Your task to perform on an android device: Check my email Image 0: 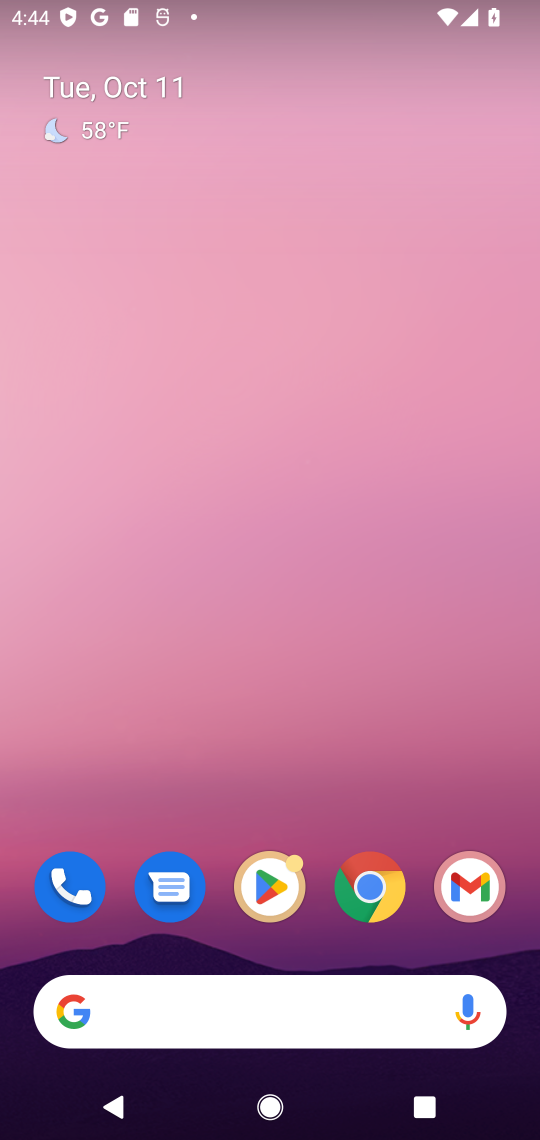
Step 0: drag from (340, 1054) to (363, 233)
Your task to perform on an android device: Check my email Image 1: 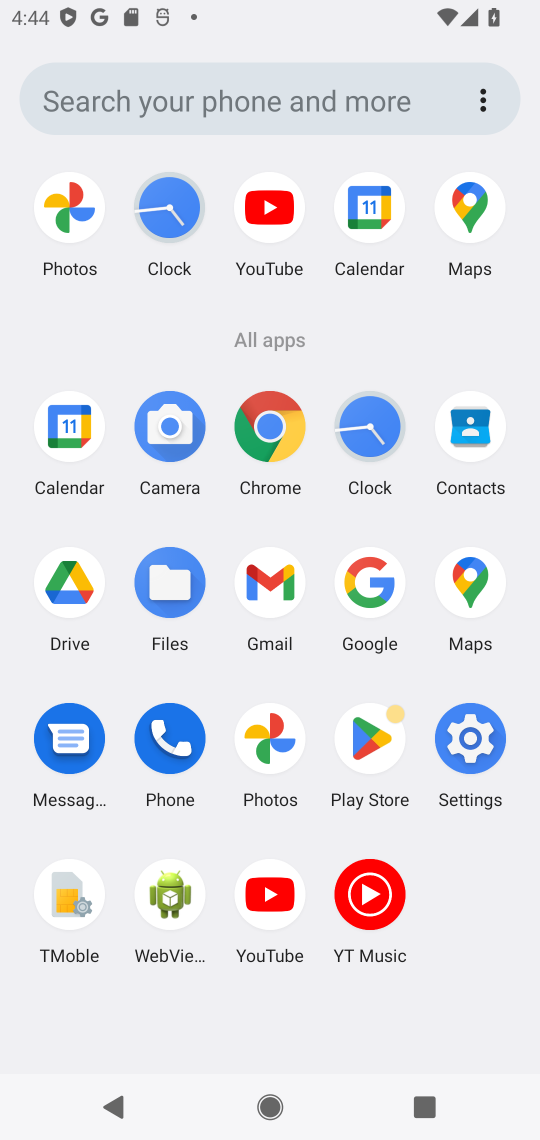
Step 1: click (262, 571)
Your task to perform on an android device: Check my email Image 2: 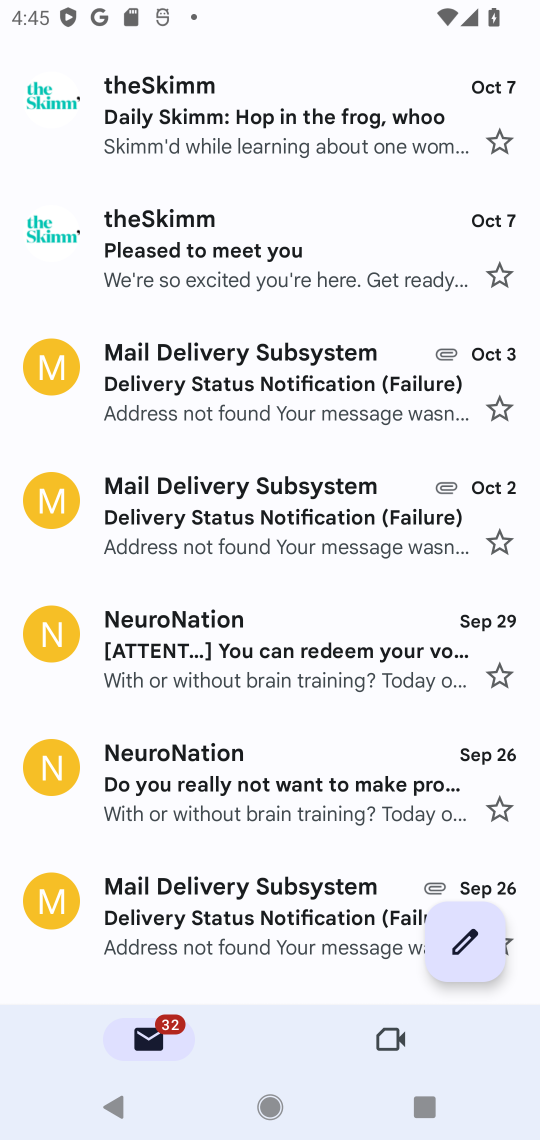
Step 2: drag from (226, 432) to (183, 760)
Your task to perform on an android device: Check my email Image 3: 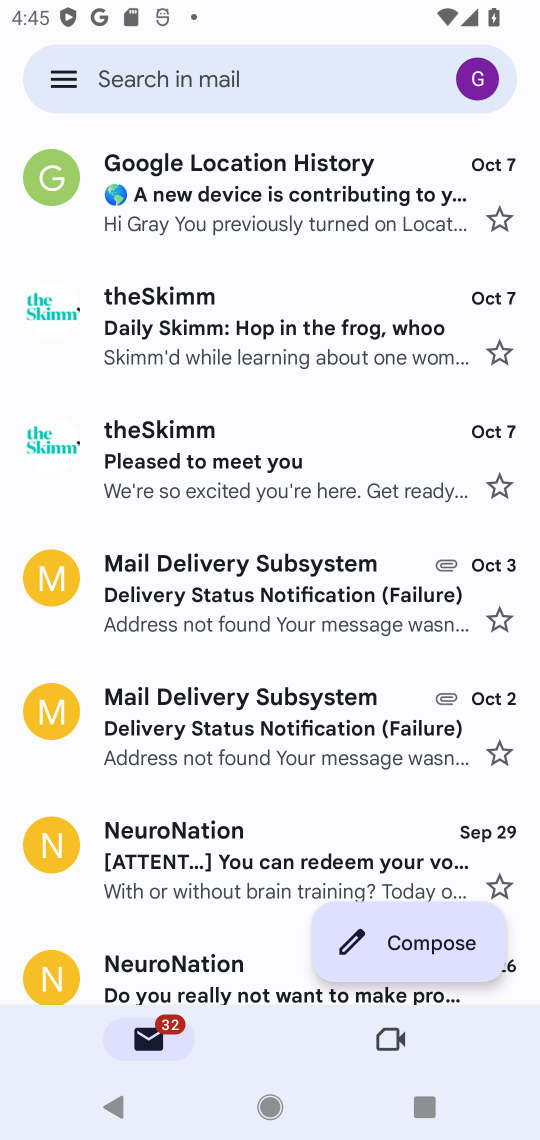
Step 3: click (62, 94)
Your task to perform on an android device: Check my email Image 4: 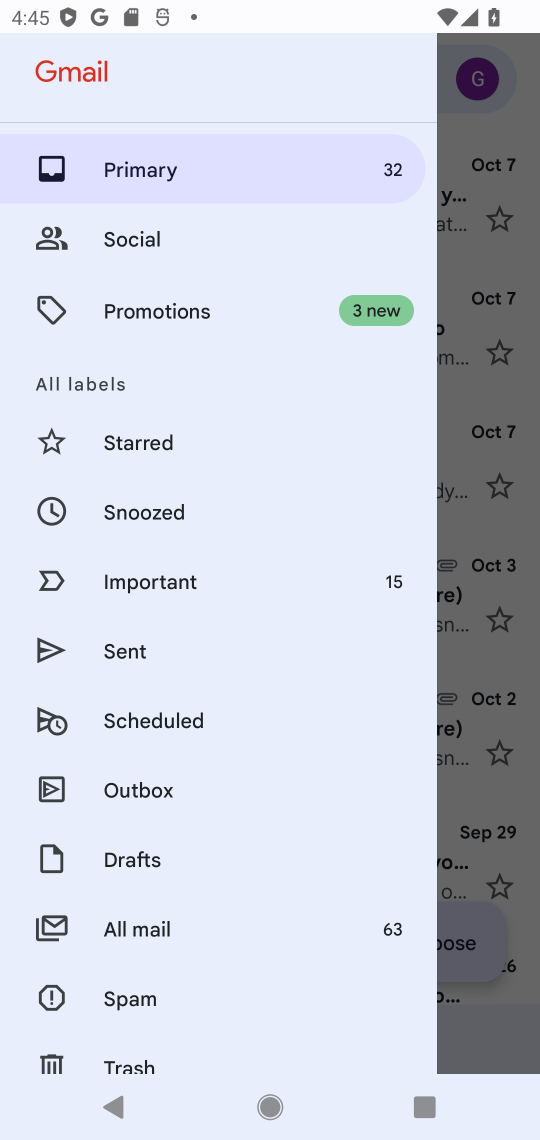
Step 4: click (321, 310)
Your task to perform on an android device: Check my email Image 5: 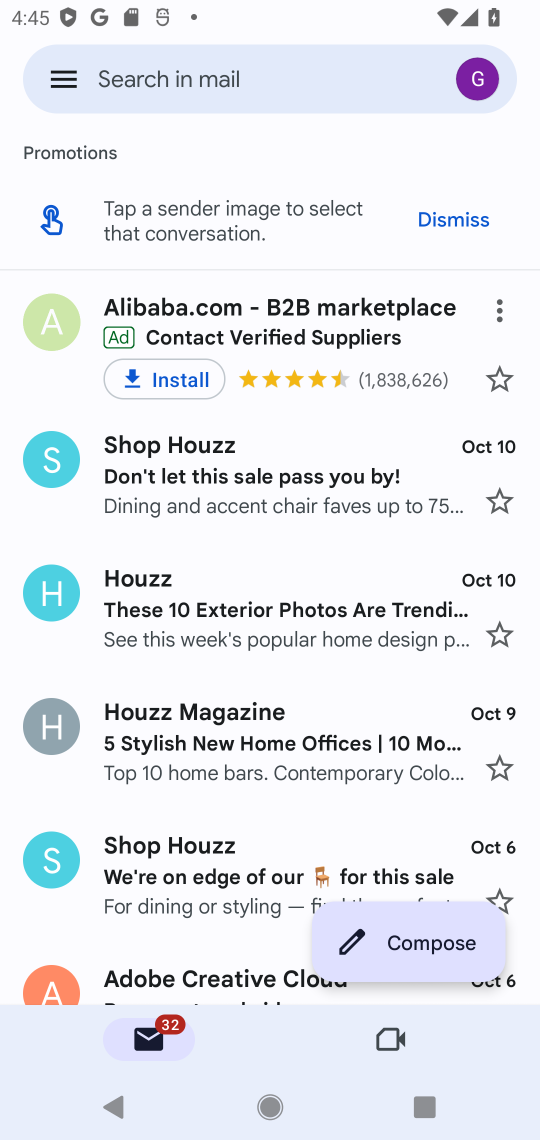
Step 5: click (471, 92)
Your task to perform on an android device: Check my email Image 6: 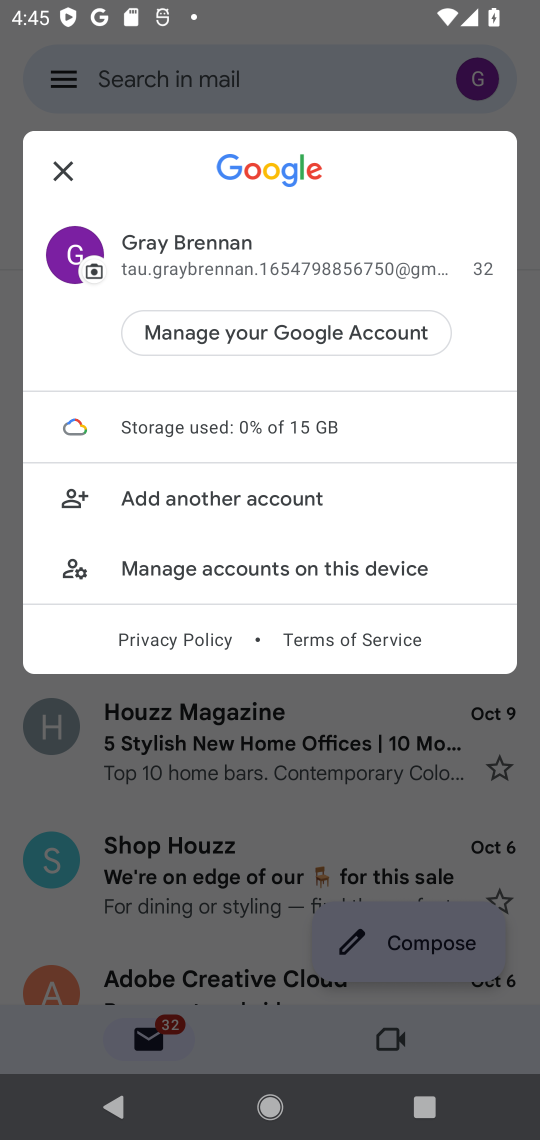
Step 6: click (471, 92)
Your task to perform on an android device: Check my email Image 7: 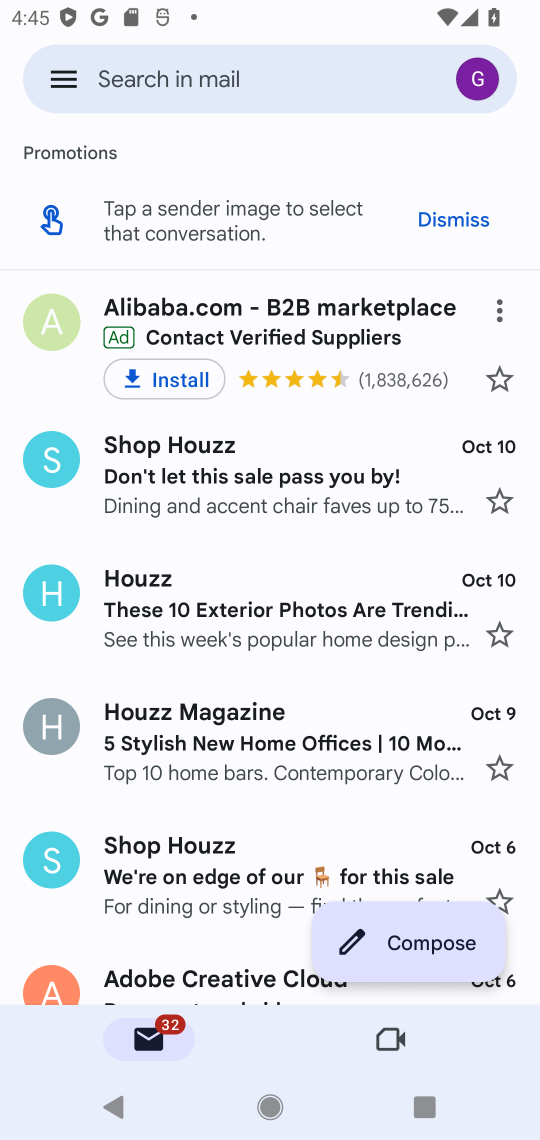
Step 7: click (471, 92)
Your task to perform on an android device: Check my email Image 8: 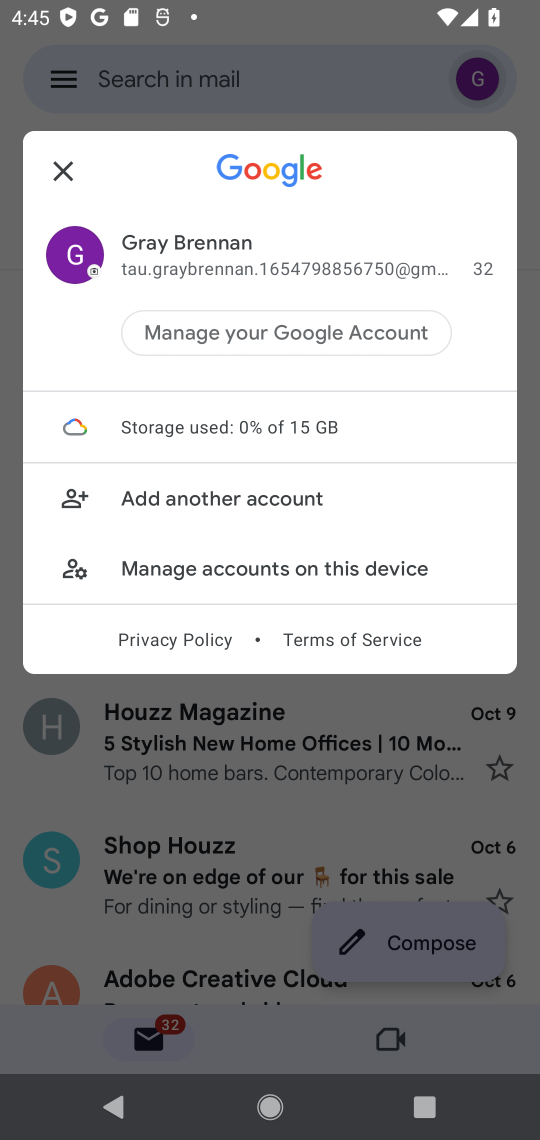
Step 8: click (471, 92)
Your task to perform on an android device: Check my email Image 9: 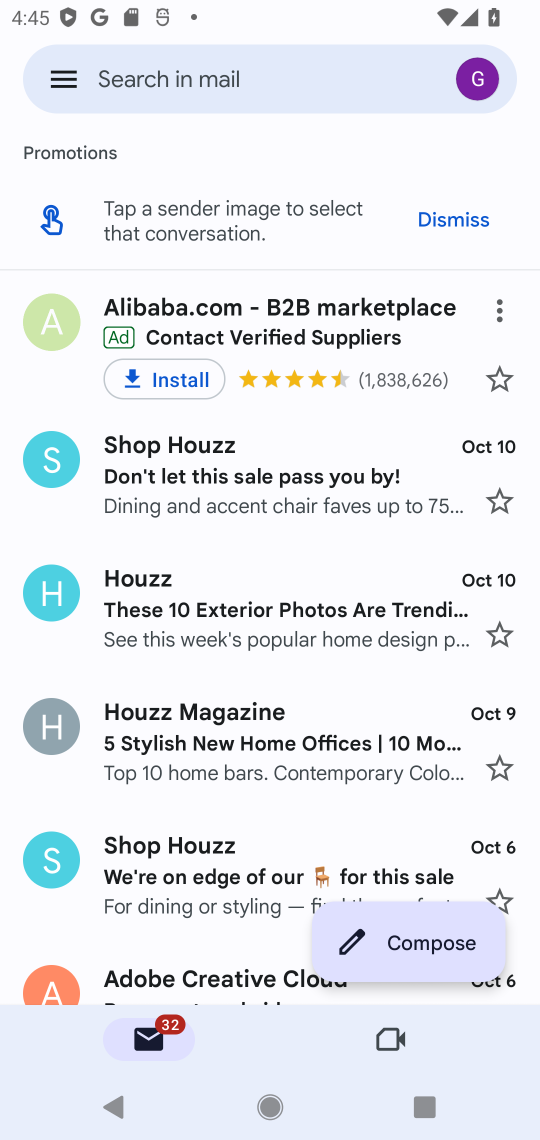
Step 9: click (471, 92)
Your task to perform on an android device: Check my email Image 10: 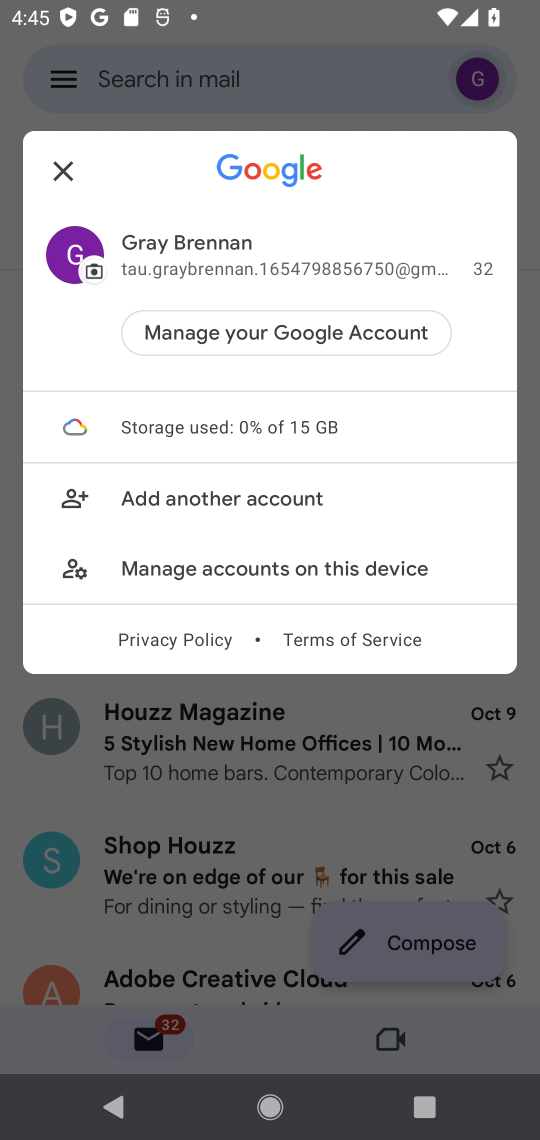
Step 10: click (471, 92)
Your task to perform on an android device: Check my email Image 11: 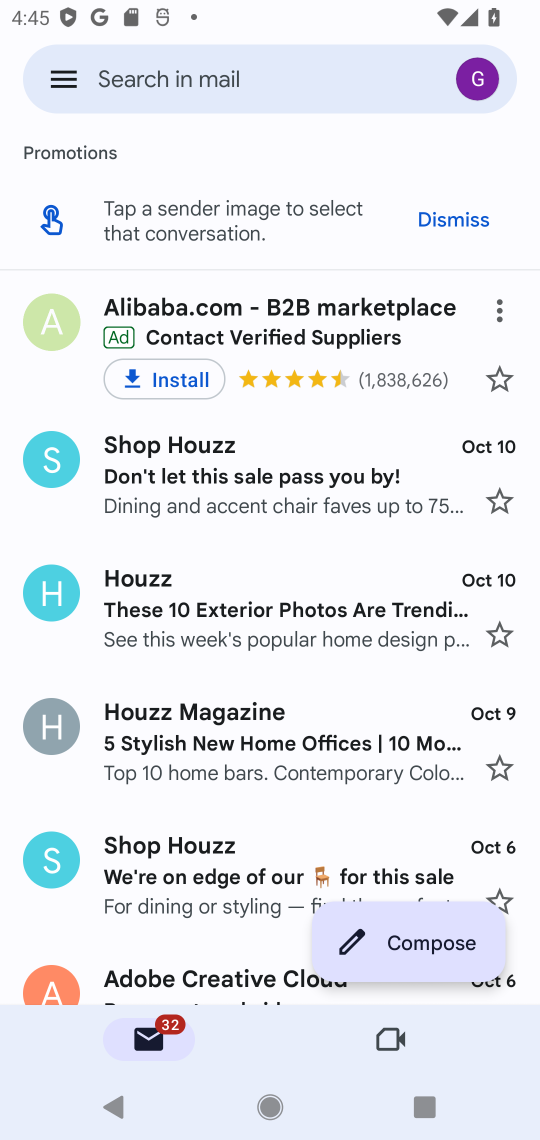
Step 11: click (471, 92)
Your task to perform on an android device: Check my email Image 12: 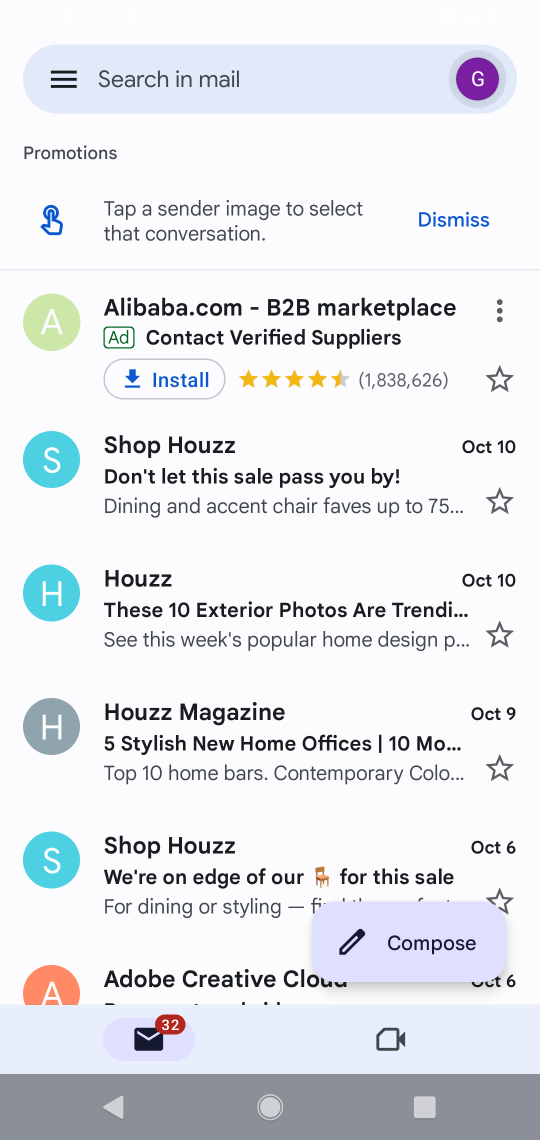
Step 12: click (471, 92)
Your task to perform on an android device: Check my email Image 13: 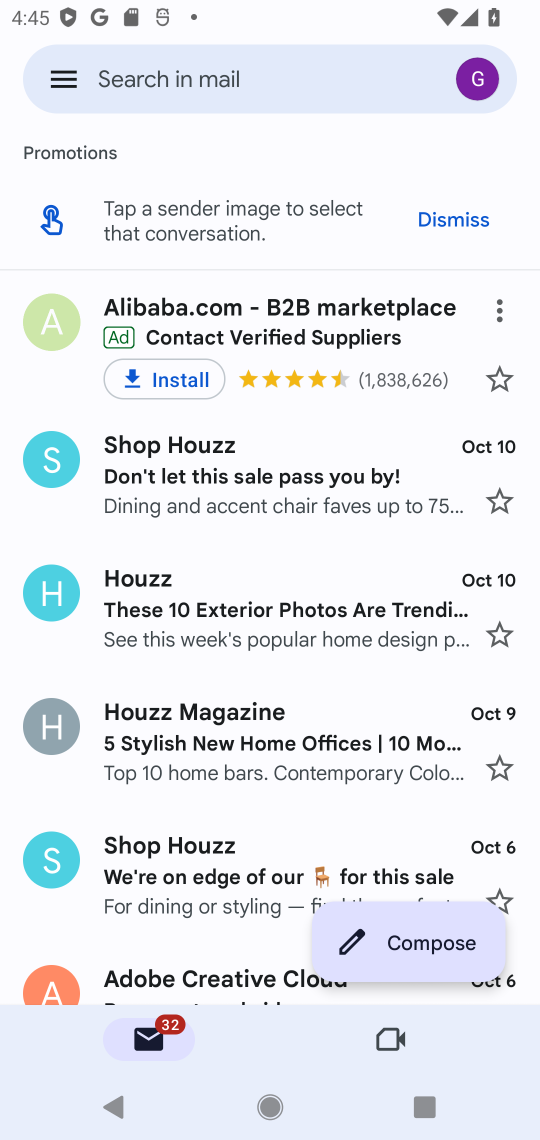
Step 13: click (471, 90)
Your task to perform on an android device: Check my email Image 14: 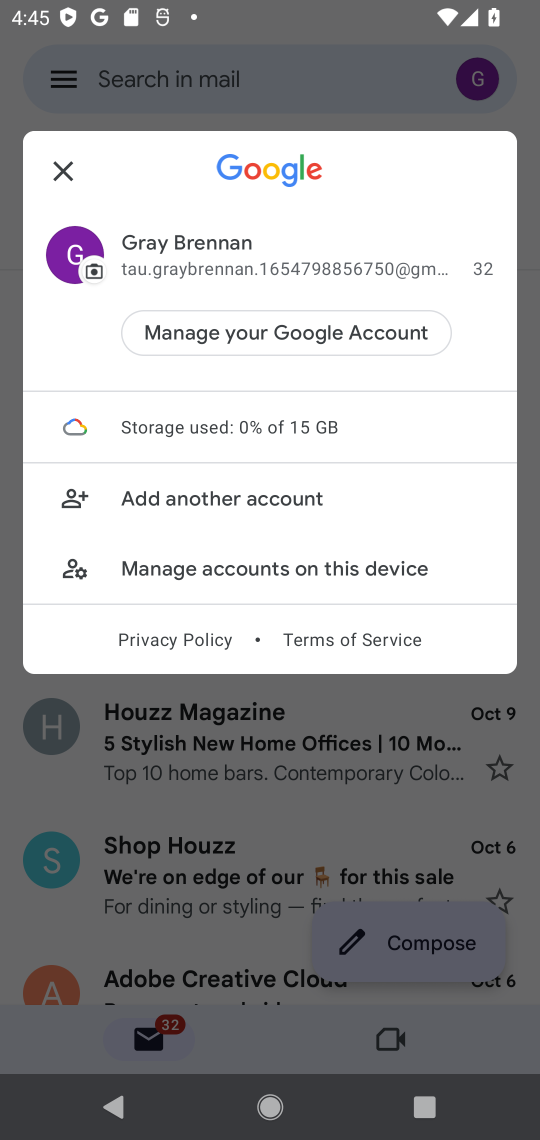
Step 14: click (471, 90)
Your task to perform on an android device: Check my email Image 15: 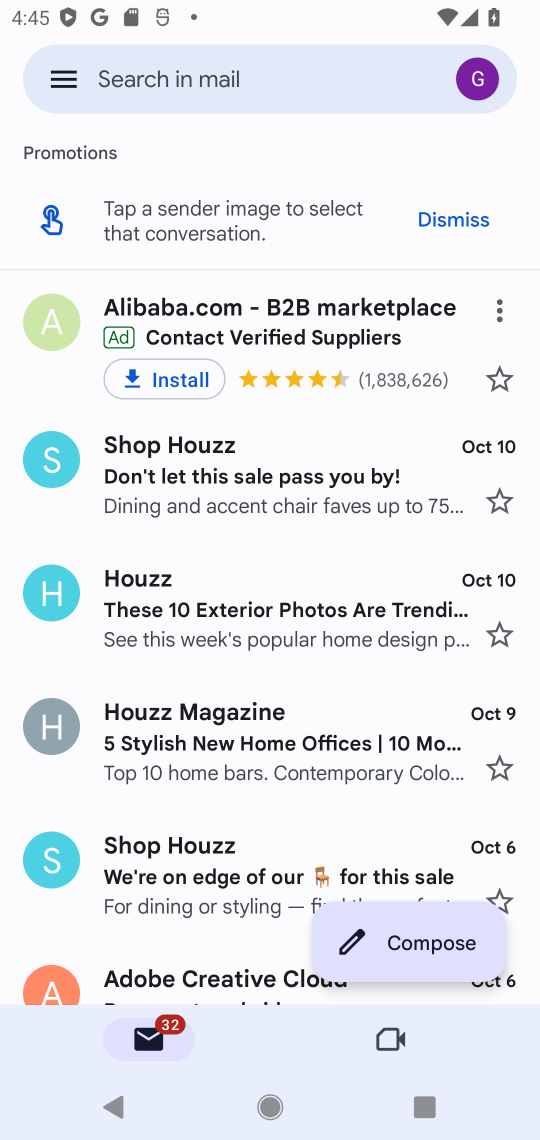
Step 15: click (471, 90)
Your task to perform on an android device: Check my email Image 16: 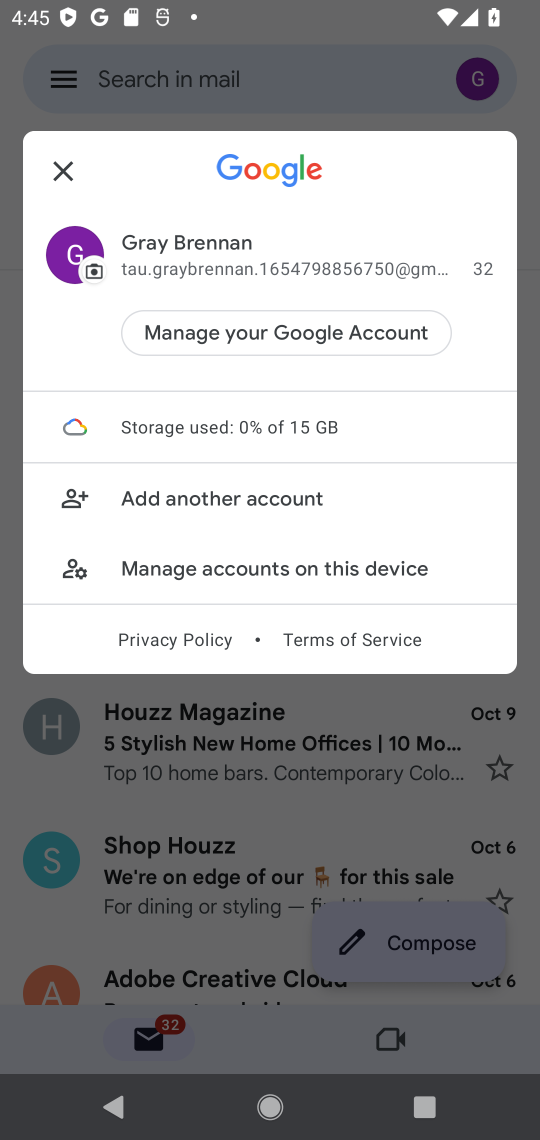
Step 16: click (473, 88)
Your task to perform on an android device: Check my email Image 17: 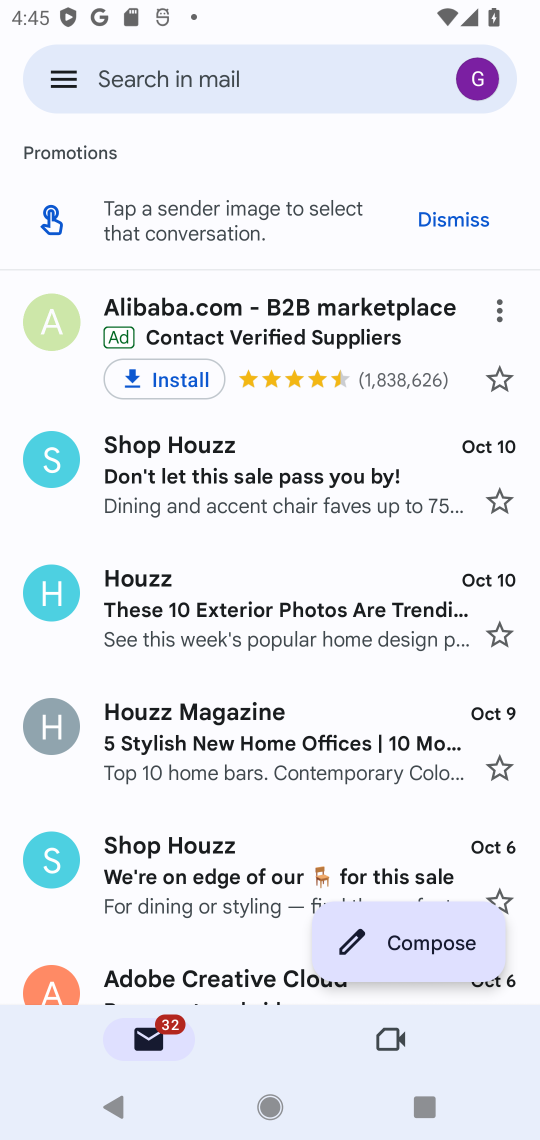
Step 17: click (473, 88)
Your task to perform on an android device: Check my email Image 18: 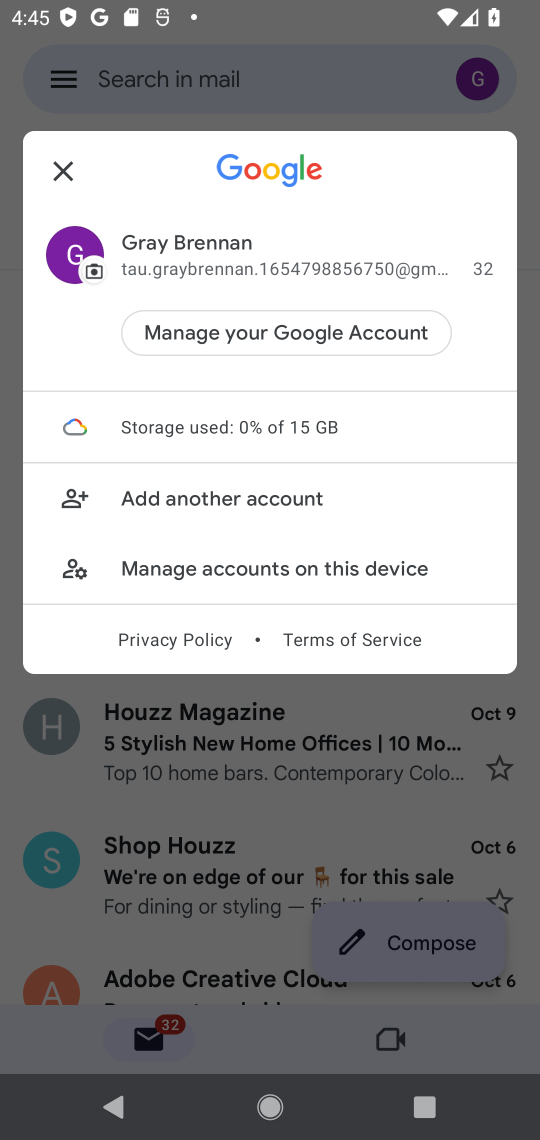
Step 18: click (473, 88)
Your task to perform on an android device: Check my email Image 19: 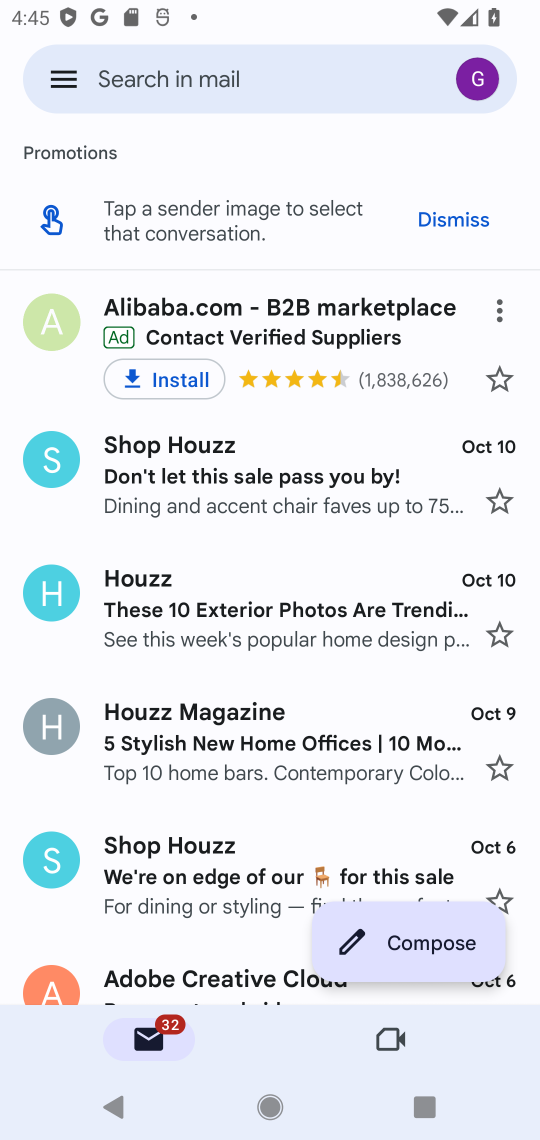
Step 19: click (473, 88)
Your task to perform on an android device: Check my email Image 20: 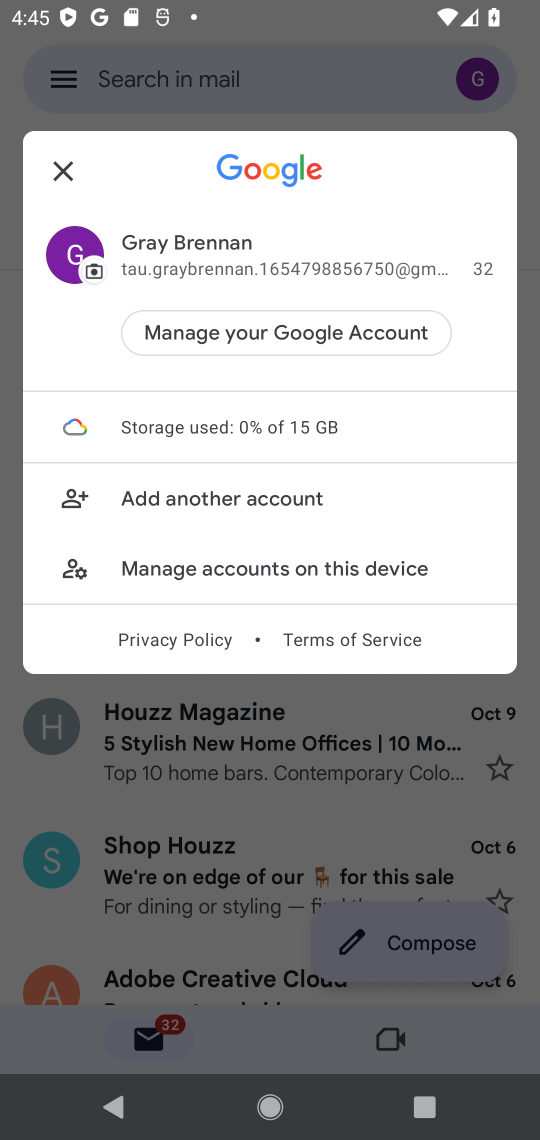
Step 20: click (473, 88)
Your task to perform on an android device: Check my email Image 21: 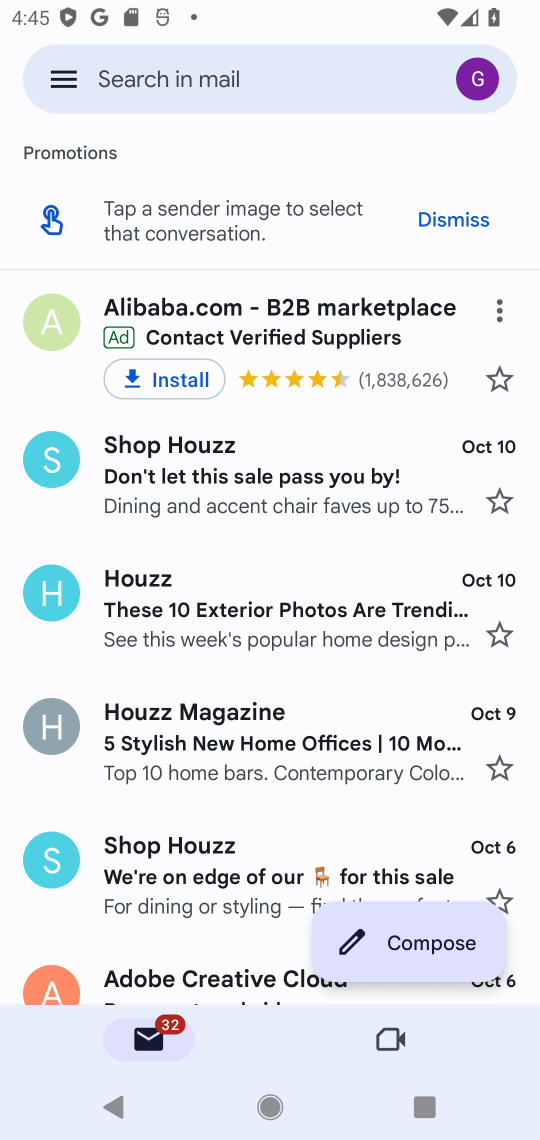
Step 21: click (473, 88)
Your task to perform on an android device: Check my email Image 22: 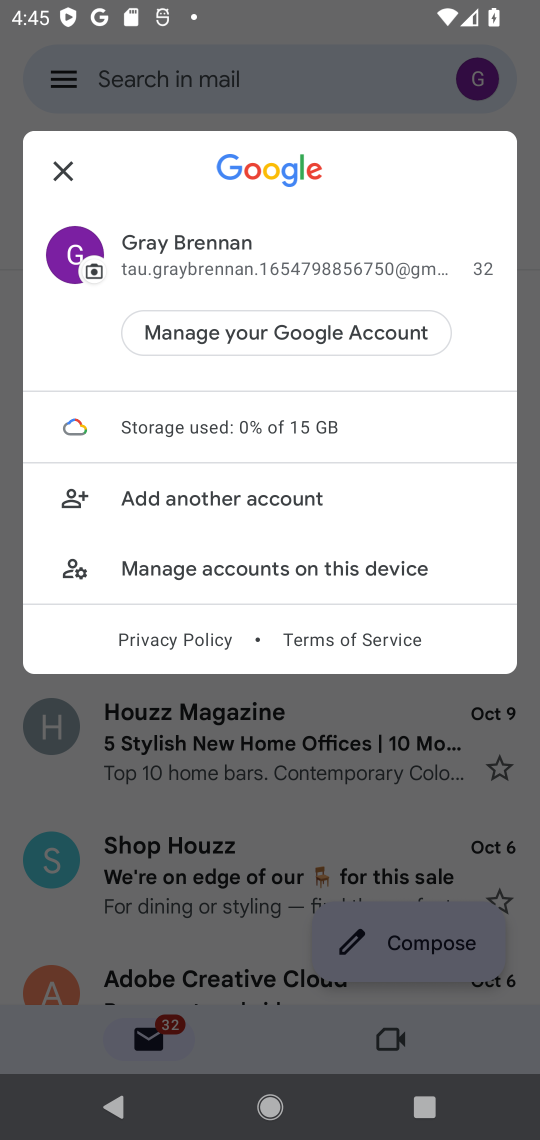
Step 22: click (473, 88)
Your task to perform on an android device: Check my email Image 23: 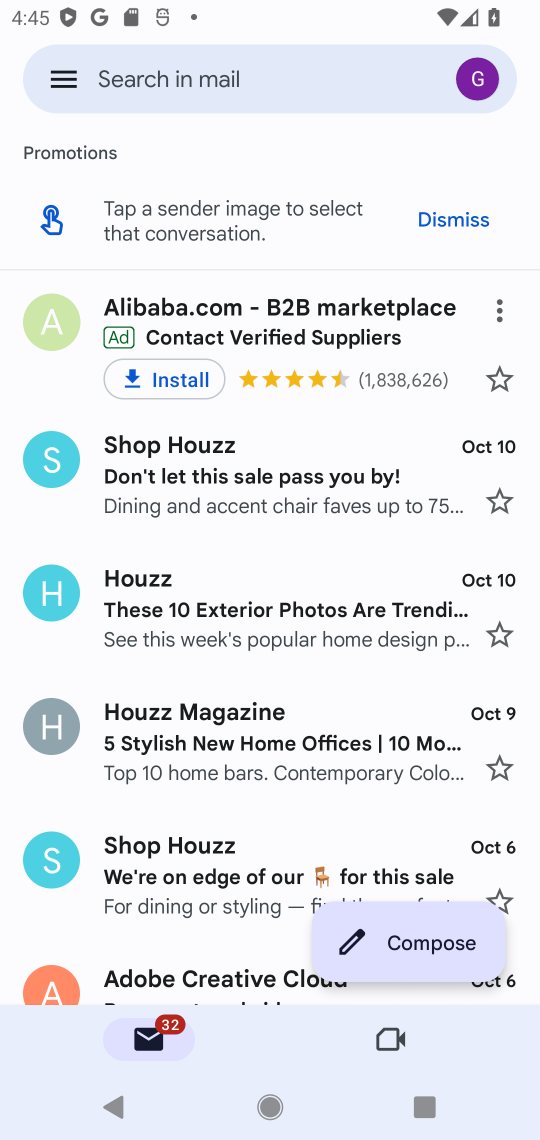
Step 23: click (473, 88)
Your task to perform on an android device: Check my email Image 24: 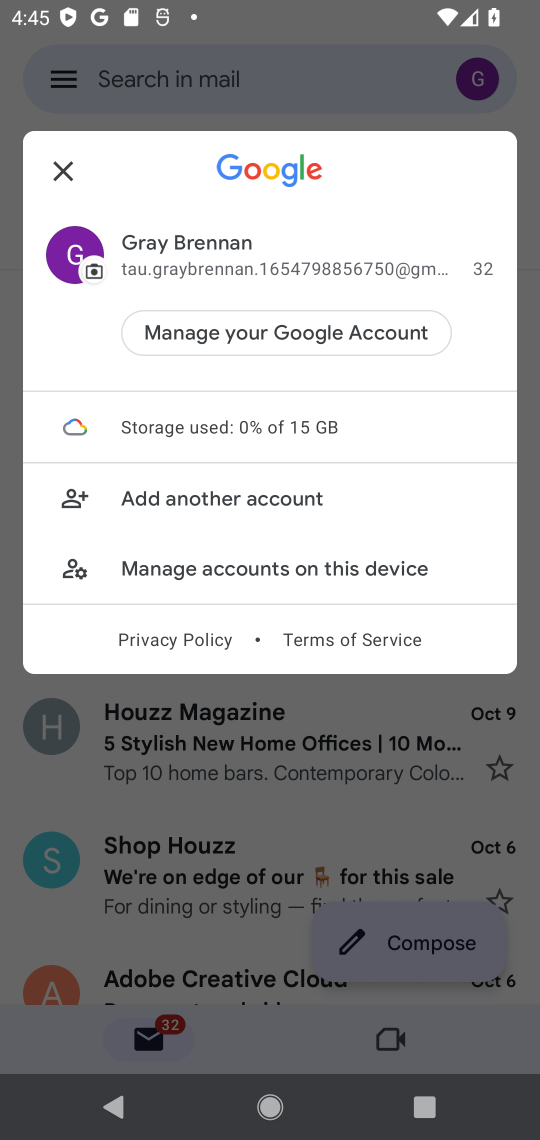
Step 24: click (473, 88)
Your task to perform on an android device: Check my email Image 25: 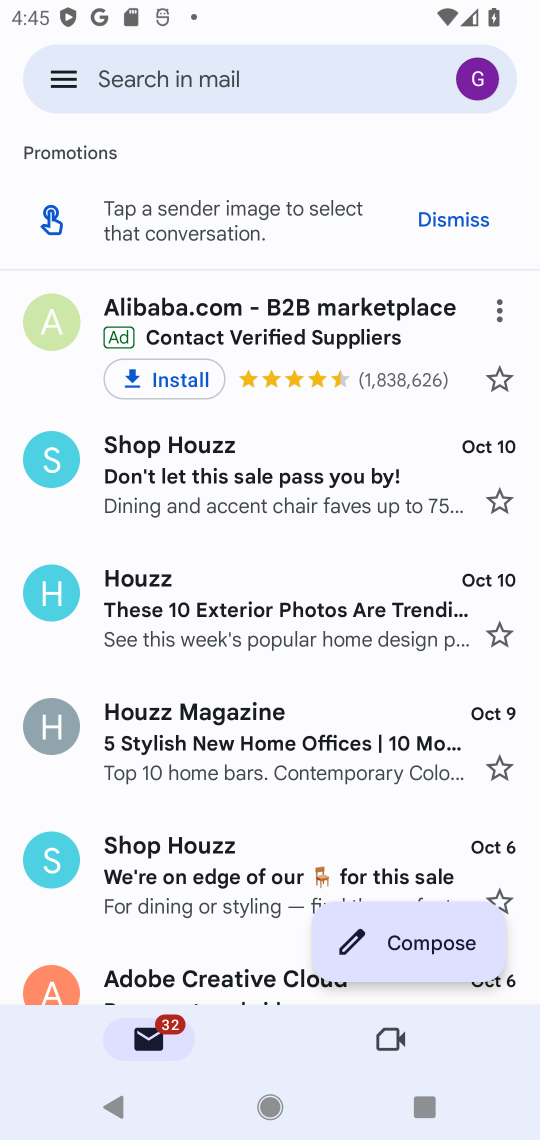
Step 25: click (473, 88)
Your task to perform on an android device: Check my email Image 26: 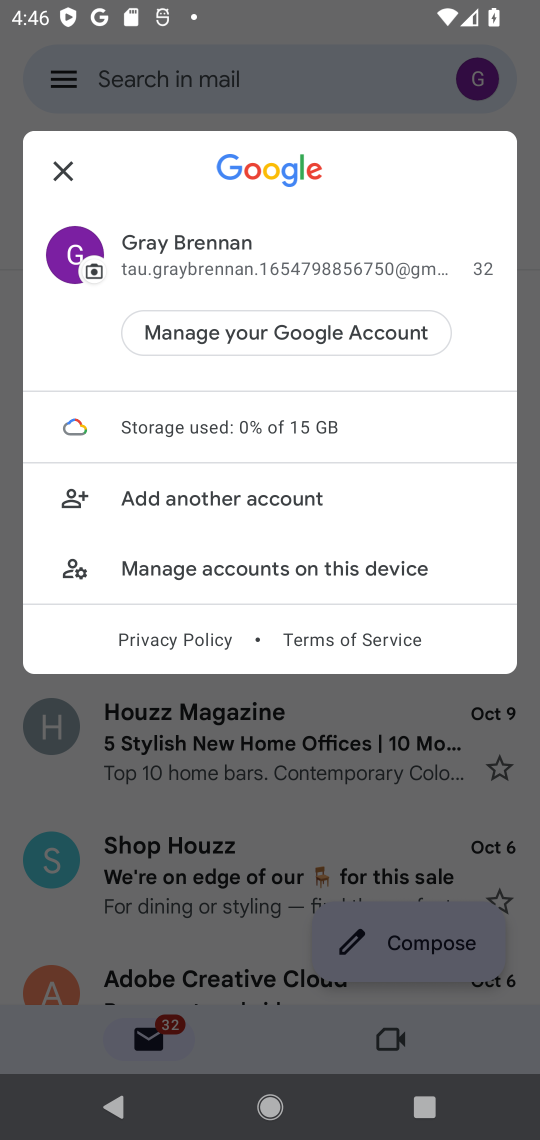
Step 26: click (479, 94)
Your task to perform on an android device: Check my email Image 27: 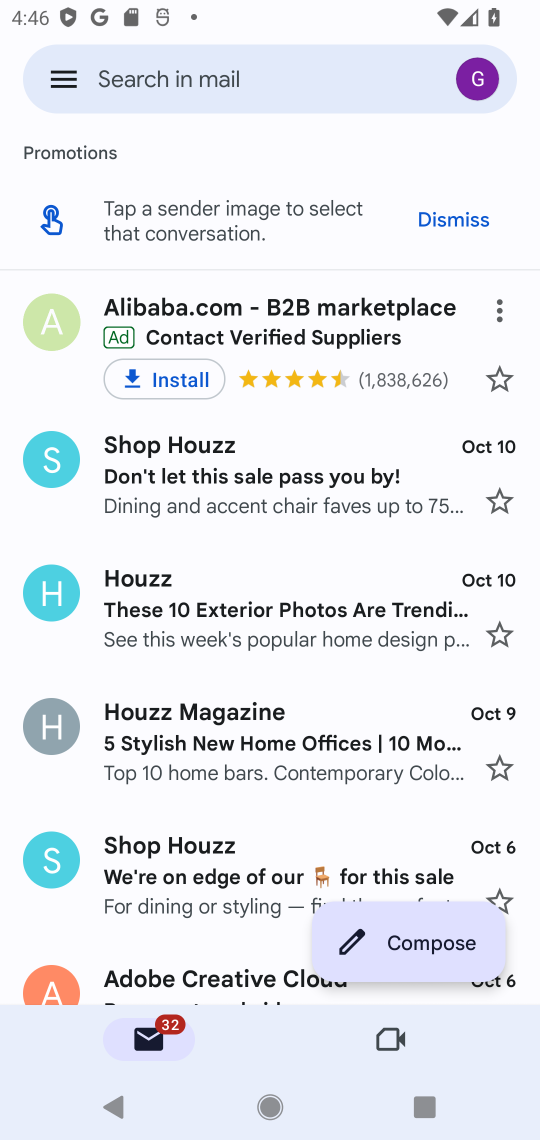
Step 27: click (477, 93)
Your task to perform on an android device: Check my email Image 28: 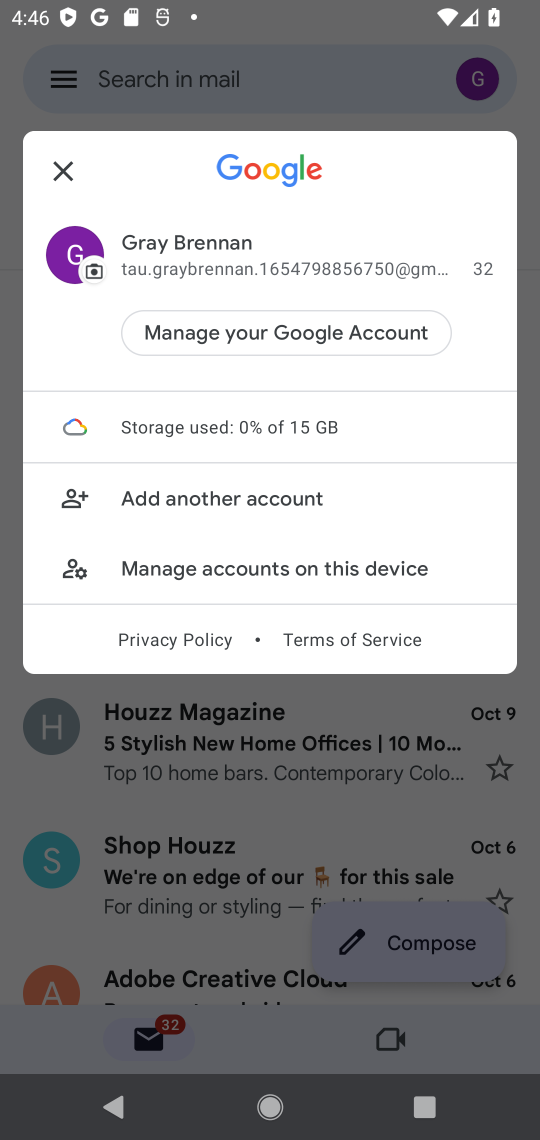
Step 28: click (477, 93)
Your task to perform on an android device: Check my email Image 29: 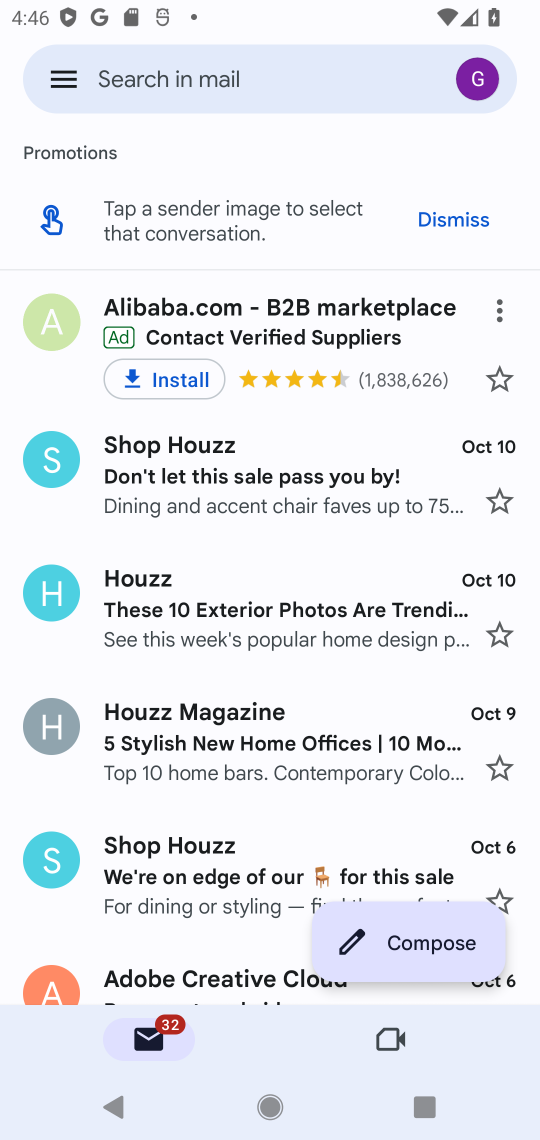
Step 29: click (477, 93)
Your task to perform on an android device: Check my email Image 30: 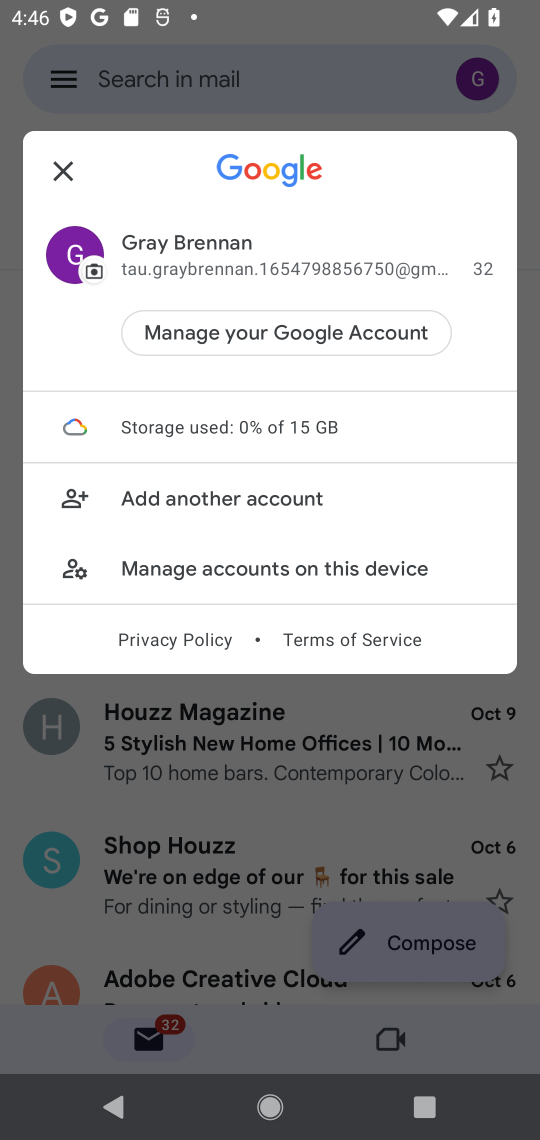
Step 30: click (477, 93)
Your task to perform on an android device: Check my email Image 31: 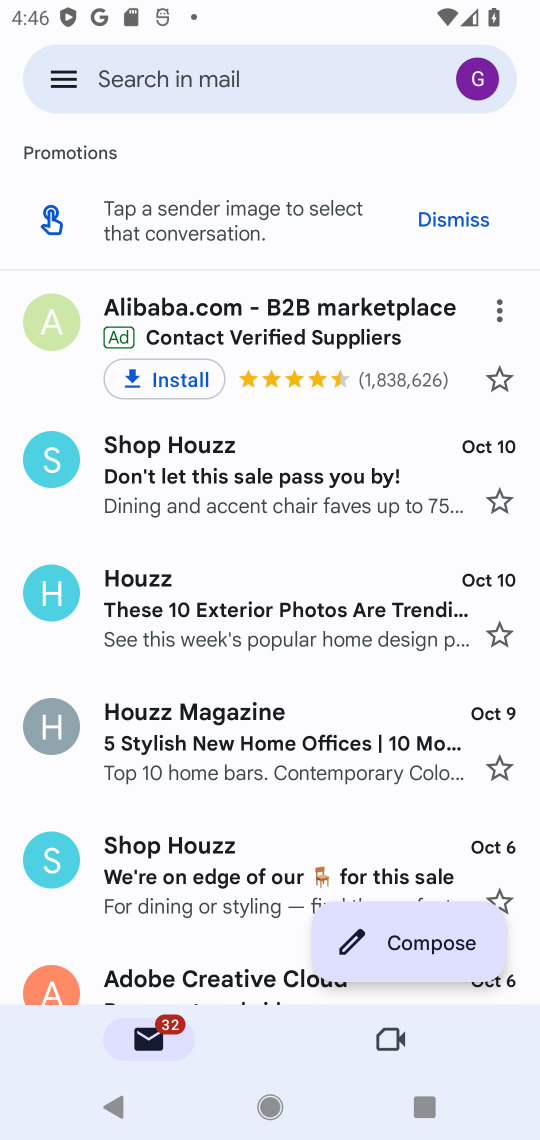
Step 31: click (495, 79)
Your task to perform on an android device: Check my email Image 32: 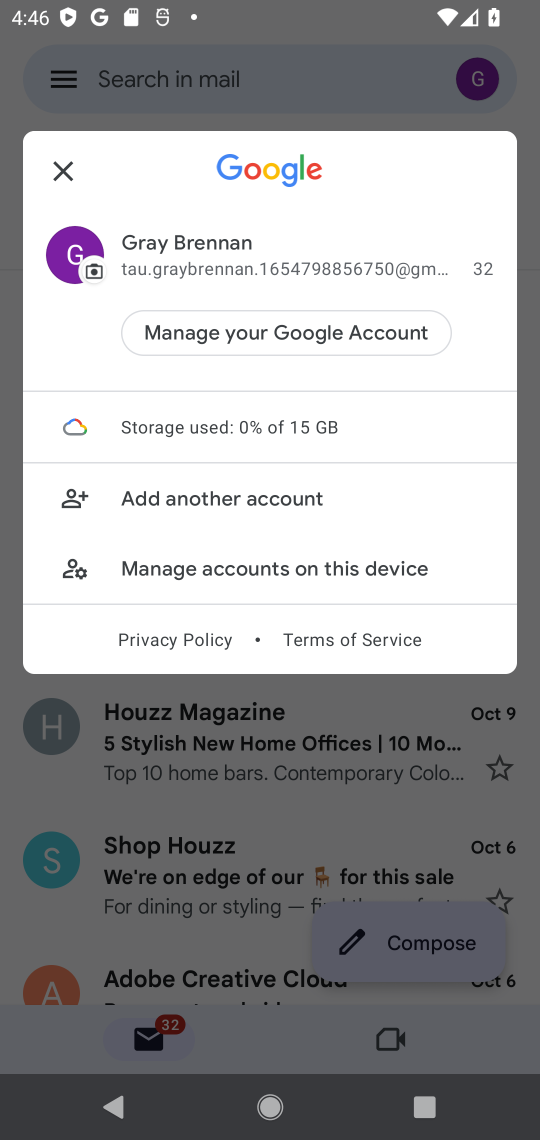
Step 32: click (495, 79)
Your task to perform on an android device: Check my email Image 33: 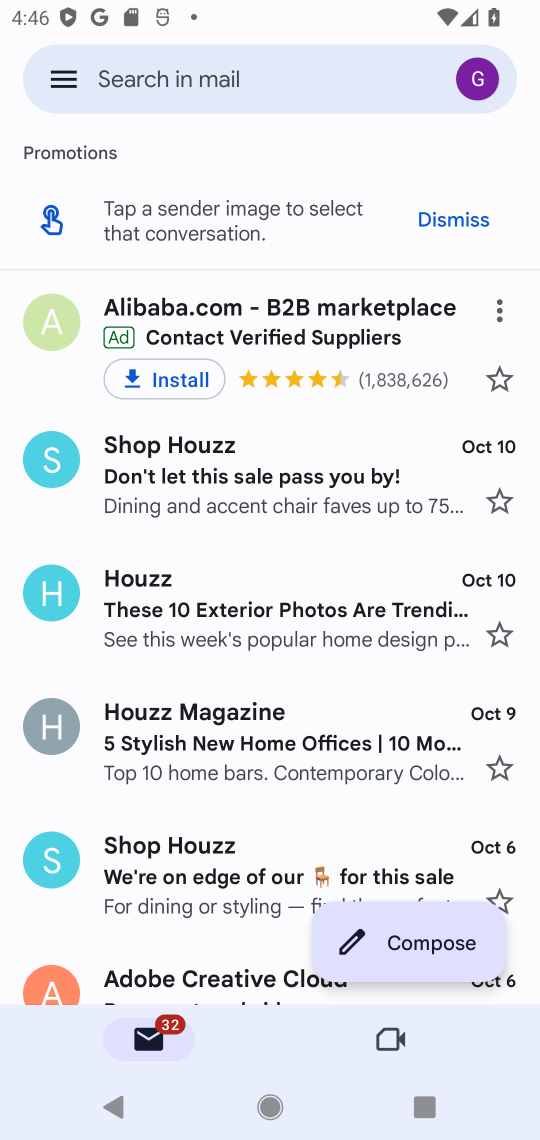
Step 33: click (495, 79)
Your task to perform on an android device: Check my email Image 34: 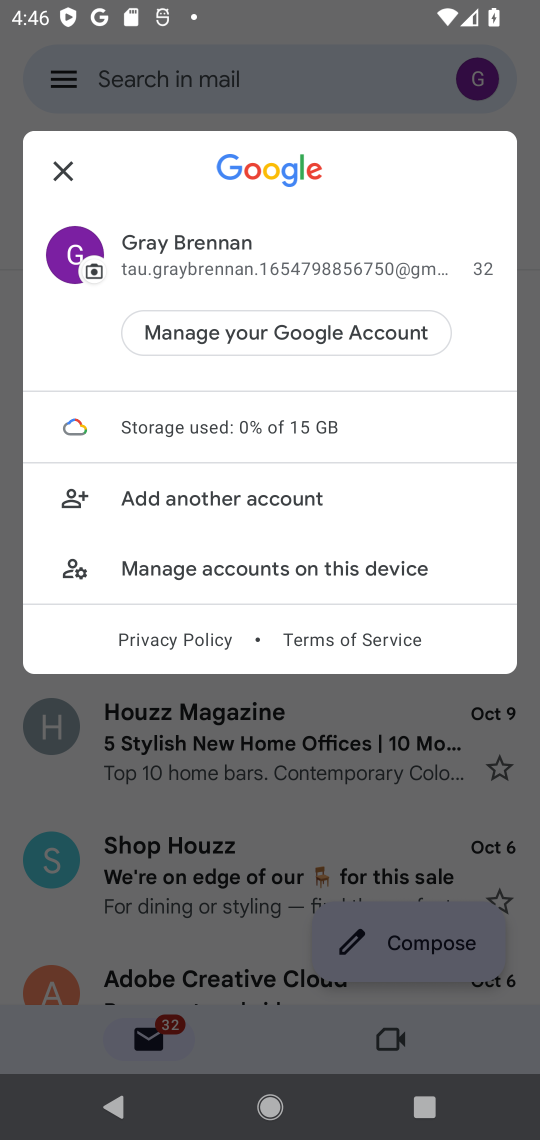
Step 34: click (495, 79)
Your task to perform on an android device: Check my email Image 35: 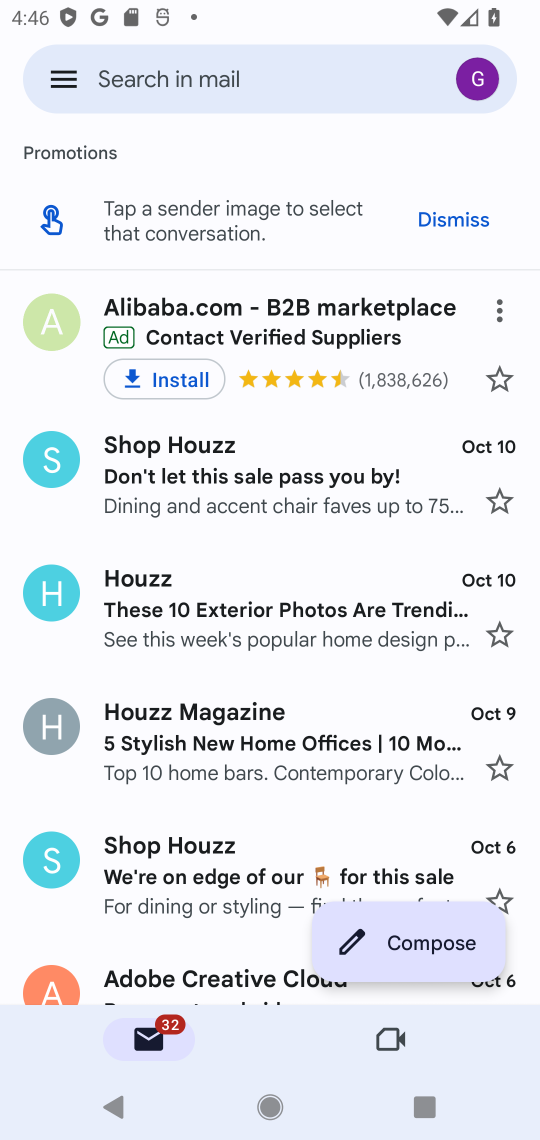
Step 35: click (495, 79)
Your task to perform on an android device: Check my email Image 36: 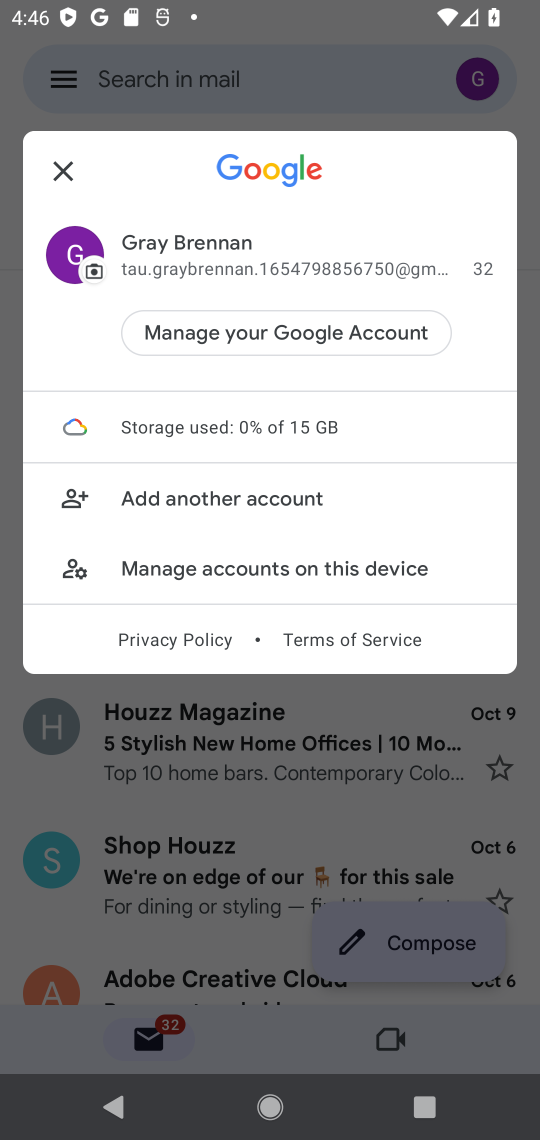
Step 36: click (488, 81)
Your task to perform on an android device: Check my email Image 37: 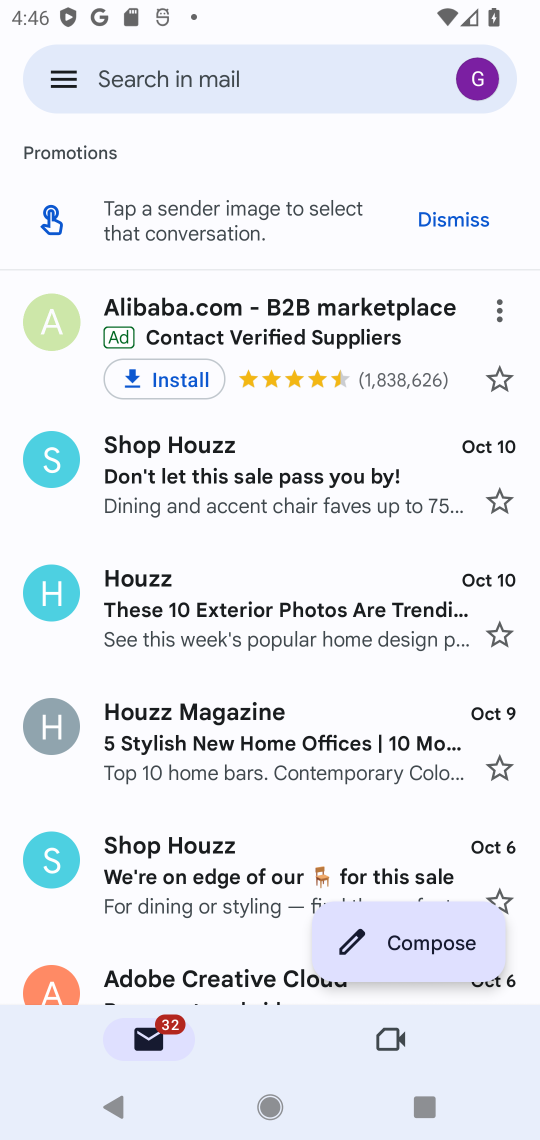
Step 37: click (488, 81)
Your task to perform on an android device: Check my email Image 38: 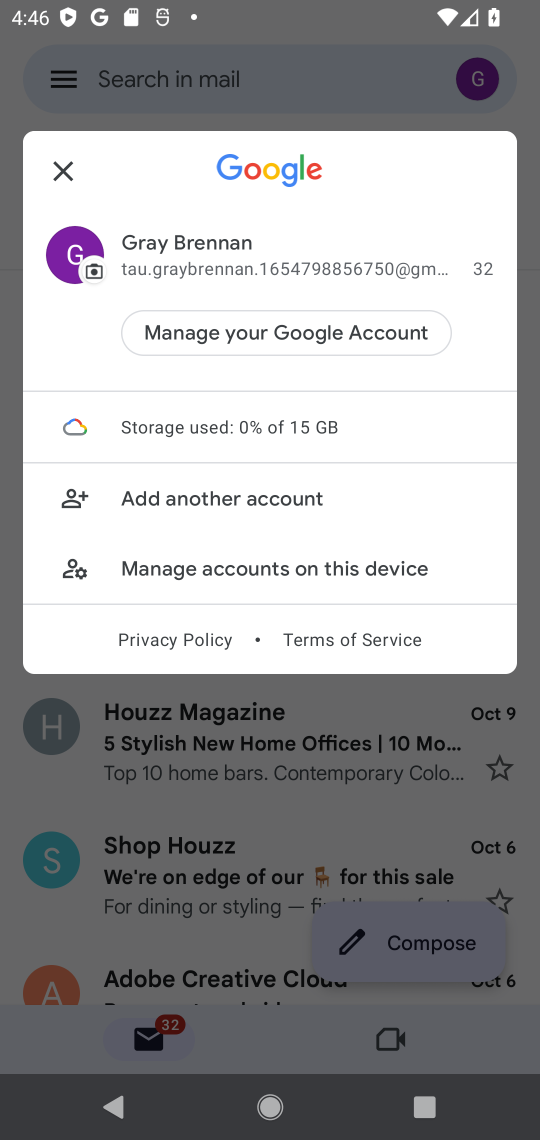
Step 38: click (488, 81)
Your task to perform on an android device: Check my email Image 39: 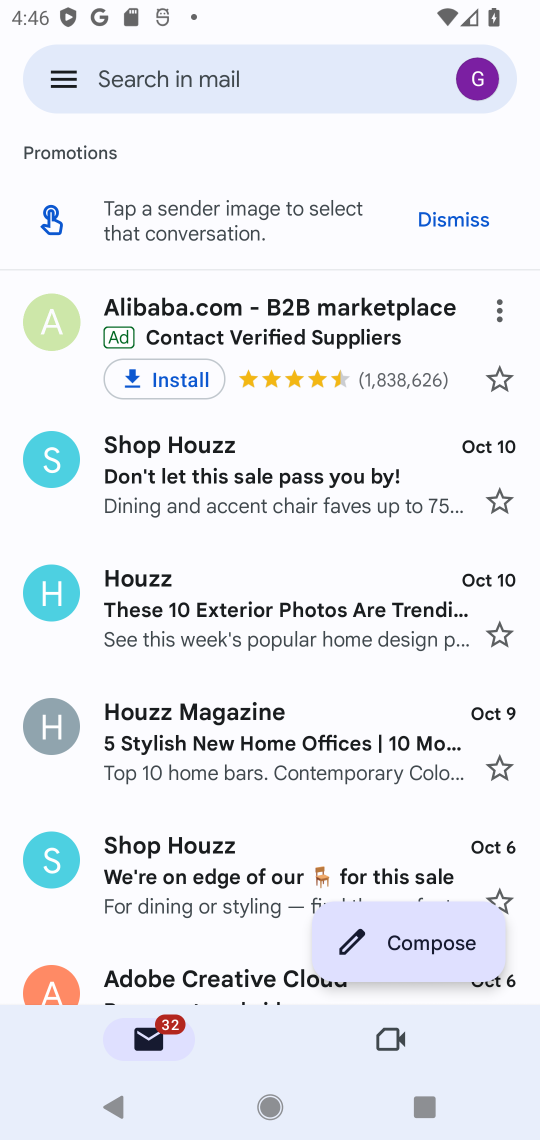
Step 39: click (488, 81)
Your task to perform on an android device: Check my email Image 40: 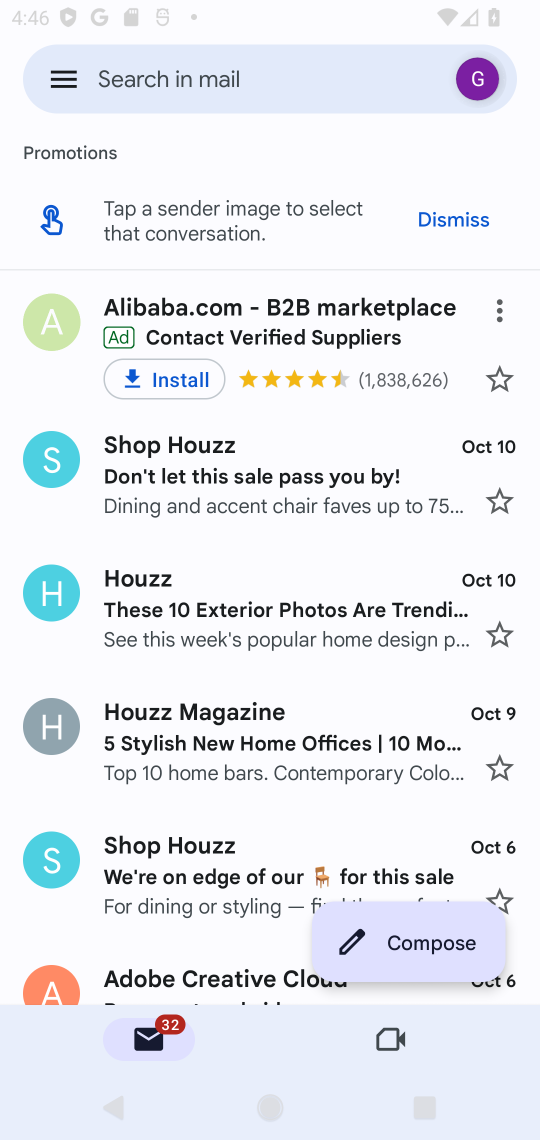
Step 40: click (488, 81)
Your task to perform on an android device: Check my email Image 41: 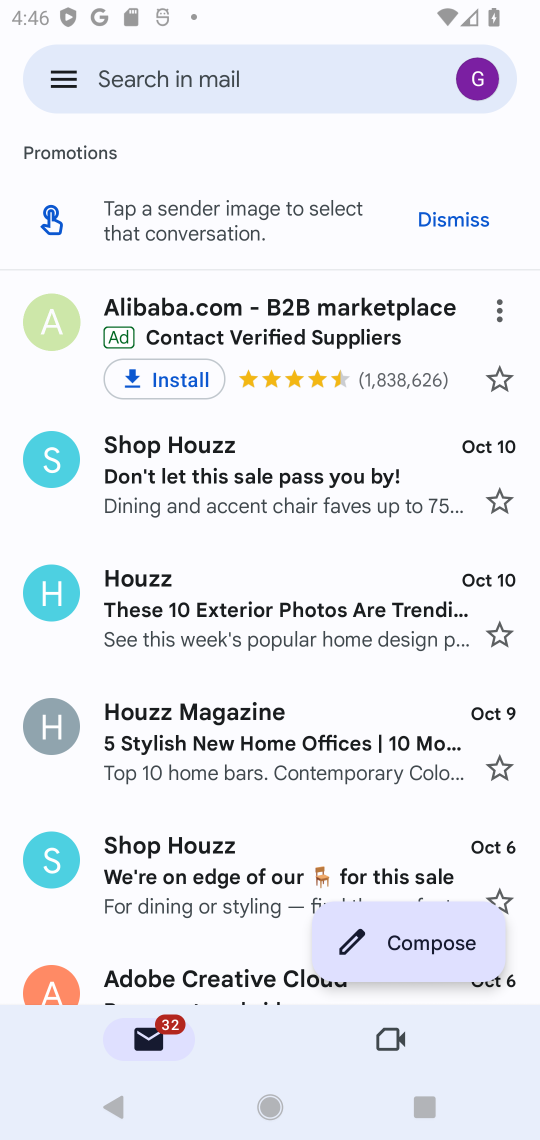
Step 41: click (488, 81)
Your task to perform on an android device: Check my email Image 42: 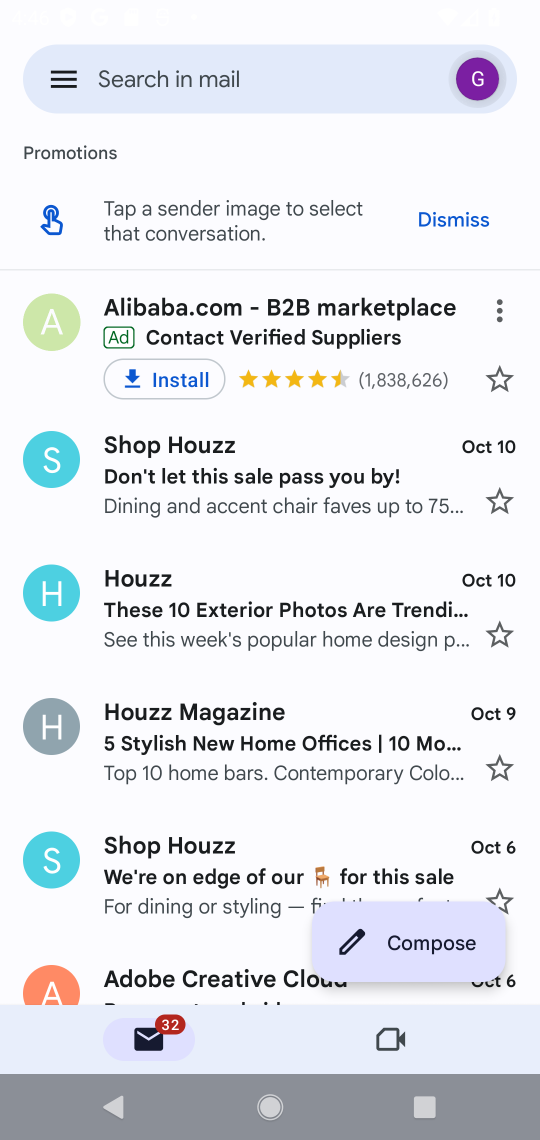
Step 42: click (488, 81)
Your task to perform on an android device: Check my email Image 43: 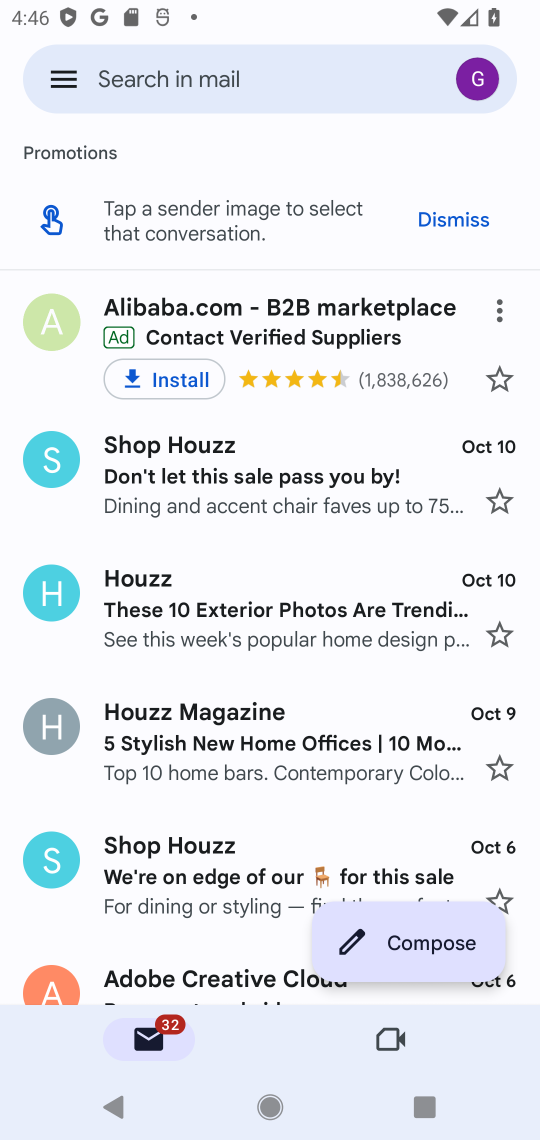
Step 43: click (488, 81)
Your task to perform on an android device: Check my email Image 44: 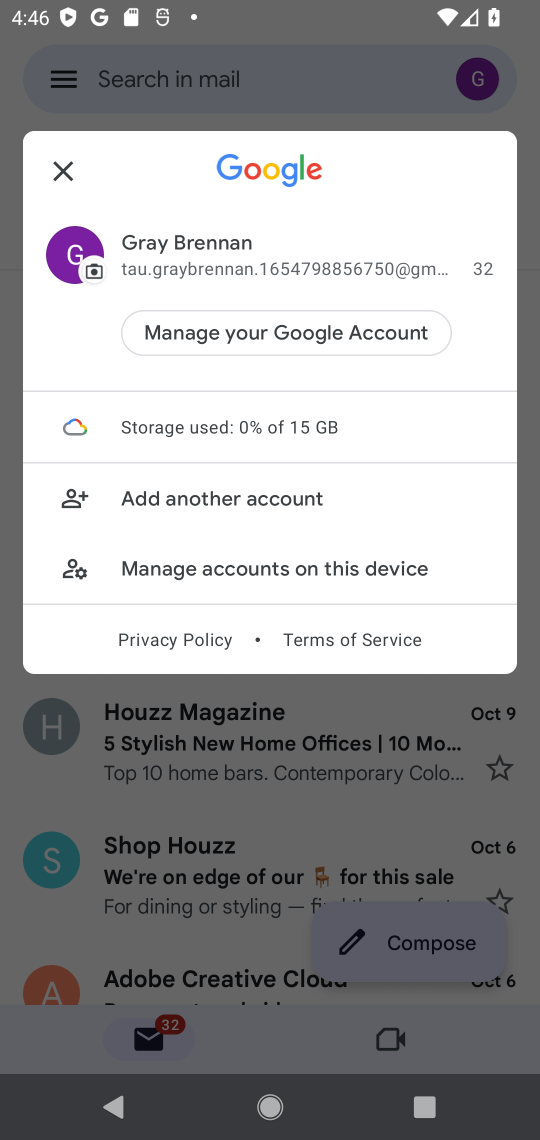
Step 44: click (488, 81)
Your task to perform on an android device: Check my email Image 45: 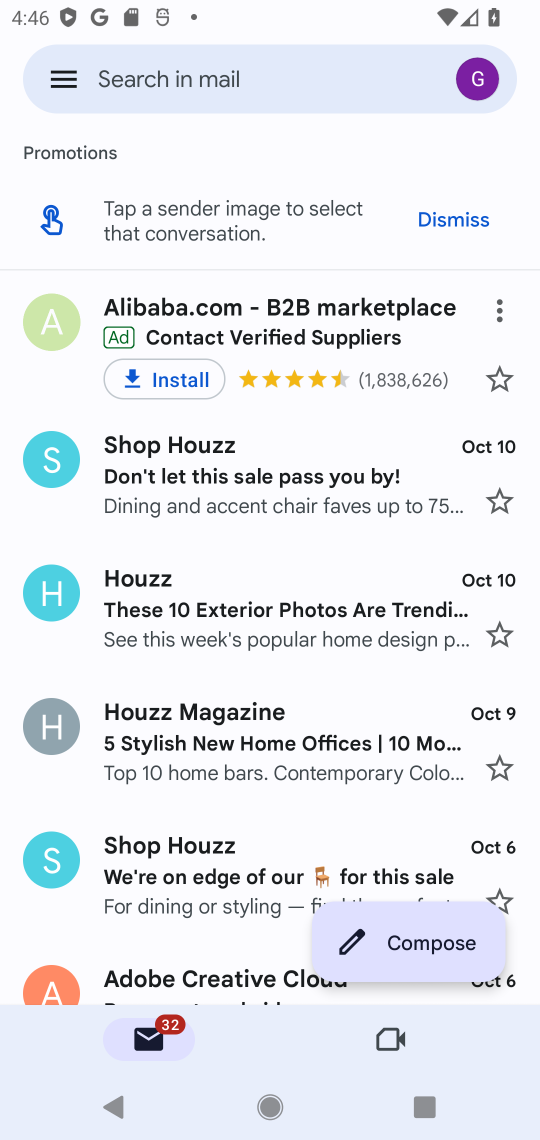
Step 45: click (488, 81)
Your task to perform on an android device: Check my email Image 46: 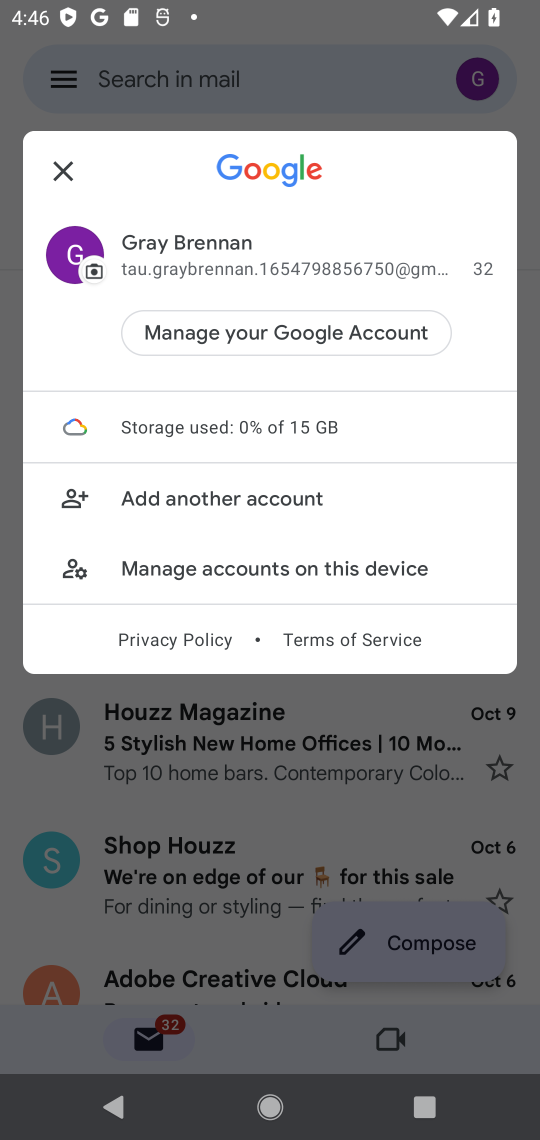
Step 46: click (471, 87)
Your task to perform on an android device: Check my email Image 47: 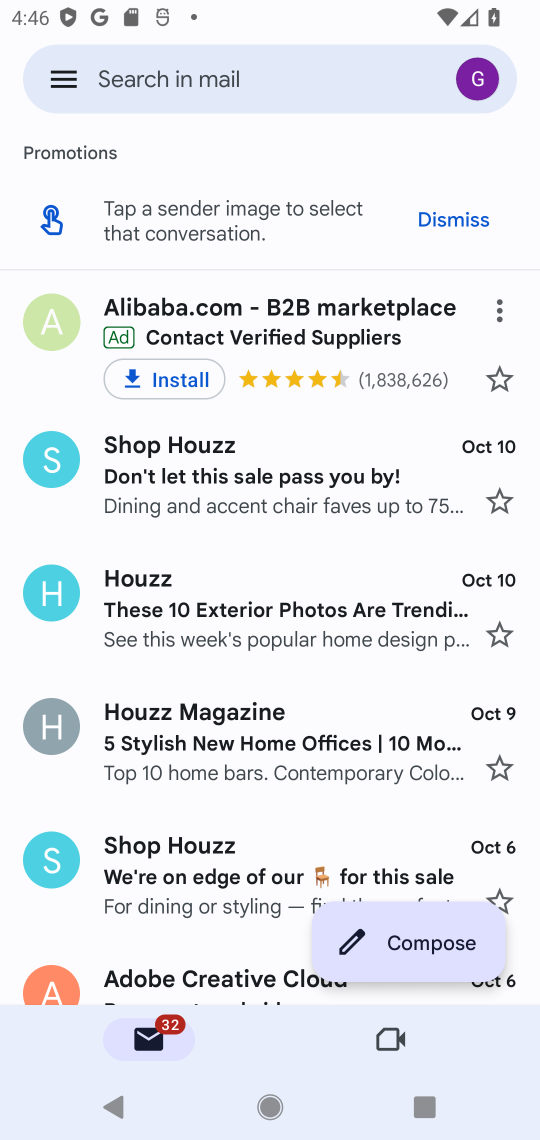
Step 47: drag from (267, 562) to (272, 343)
Your task to perform on an android device: Check my email Image 48: 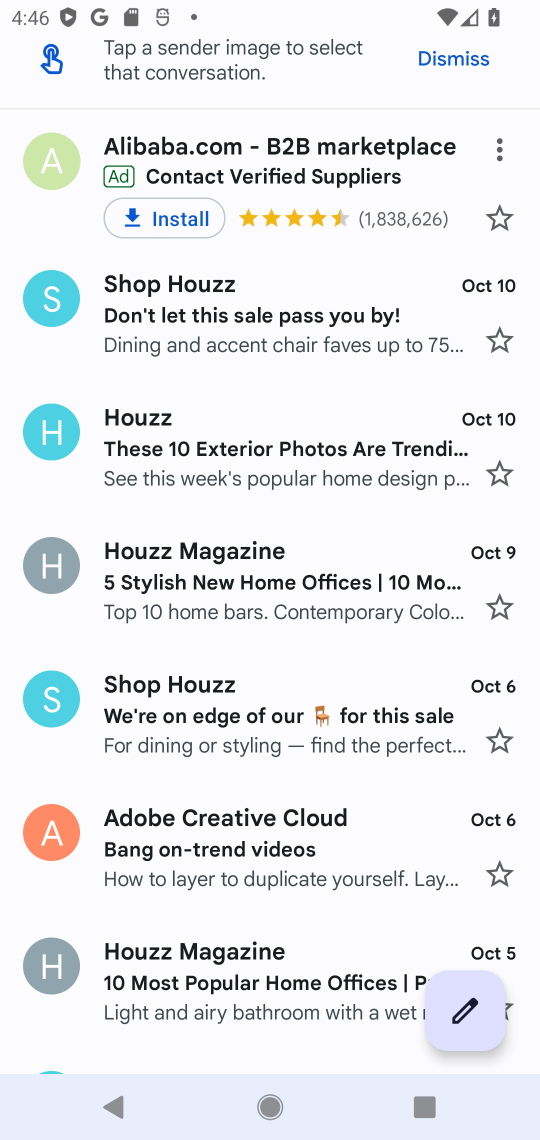
Step 48: drag from (298, 946) to (344, 546)
Your task to perform on an android device: Check my email Image 49: 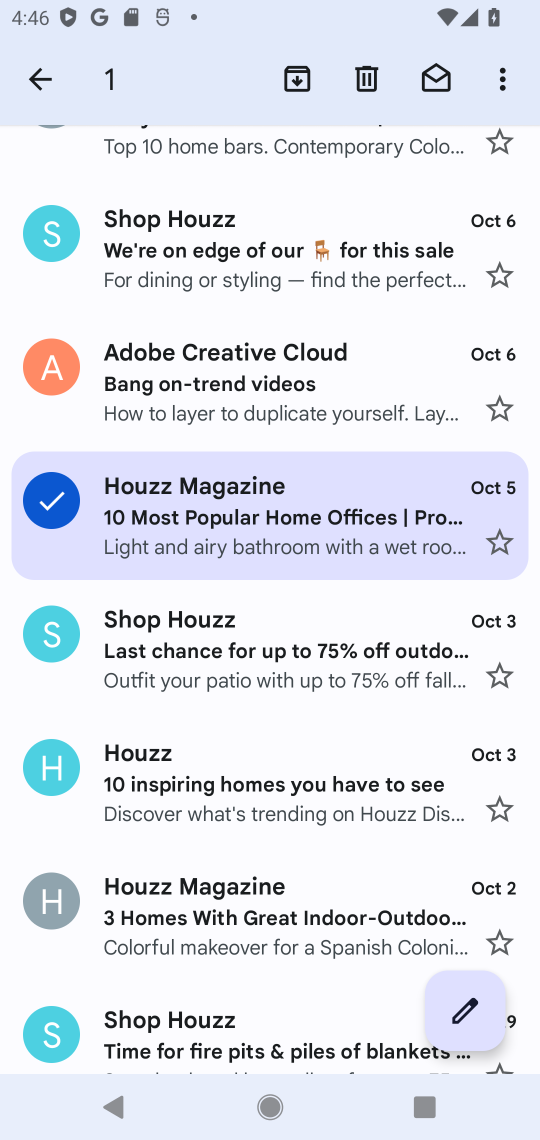
Step 49: drag from (297, 773) to (307, 214)
Your task to perform on an android device: Check my email Image 50: 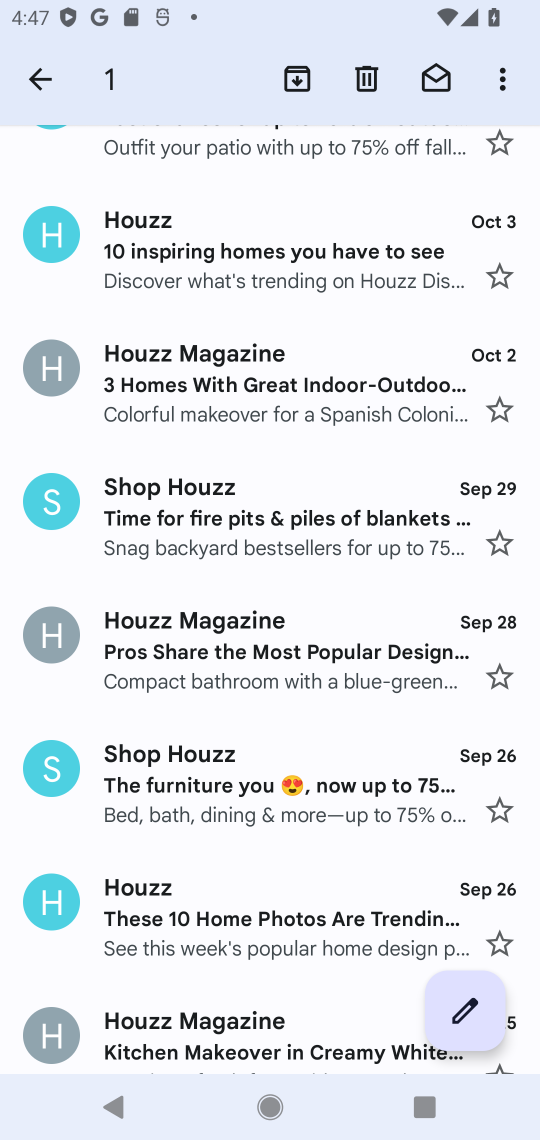
Step 50: drag from (240, 952) to (265, 353)
Your task to perform on an android device: Check my email Image 51: 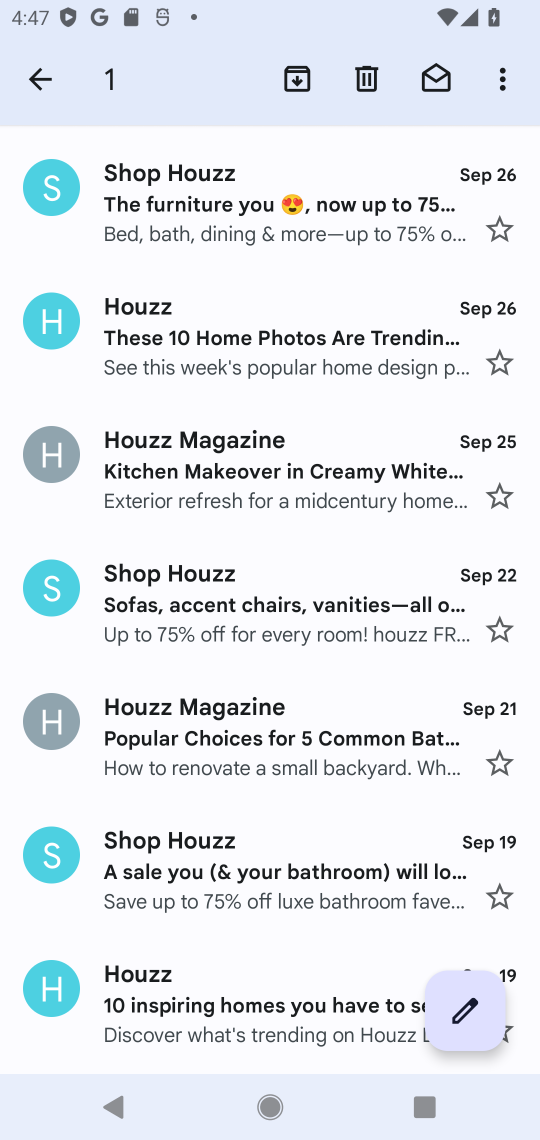
Step 51: click (274, 338)
Your task to perform on an android device: Check my email Image 52: 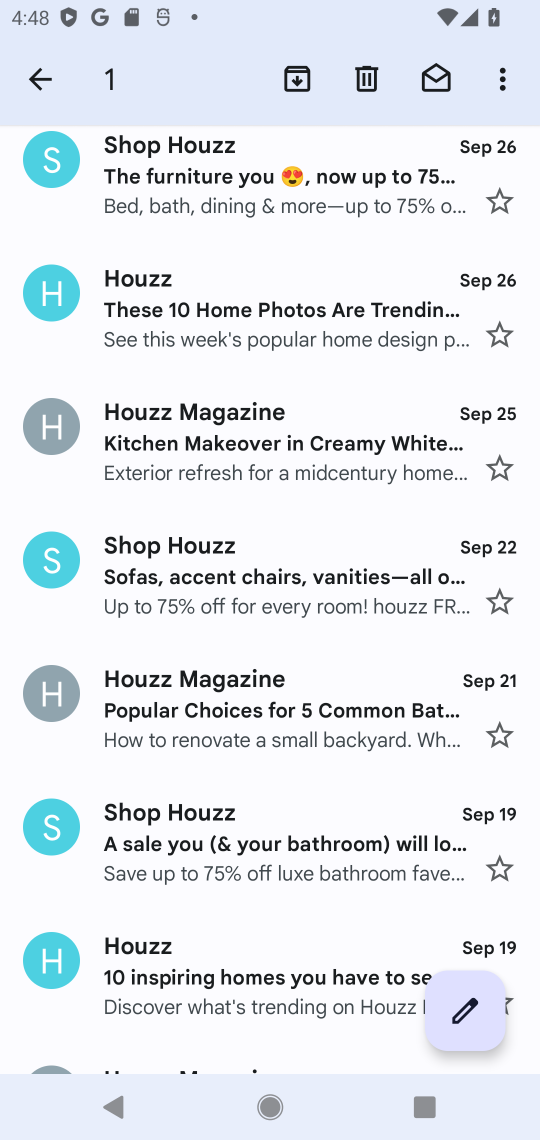
Step 52: drag from (249, 962) to (255, 908)
Your task to perform on an android device: Check my email Image 53: 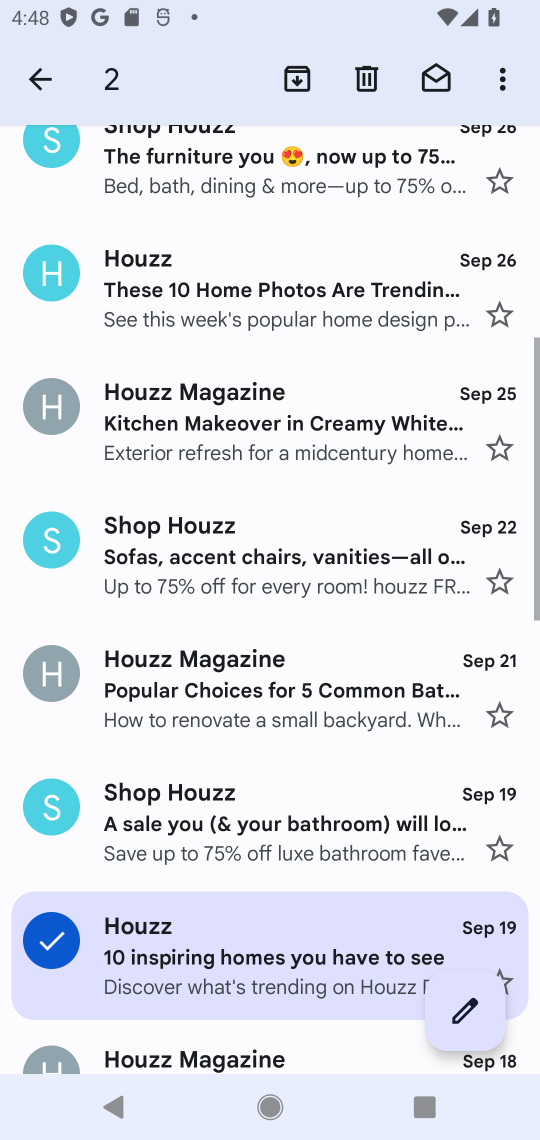
Step 53: click (251, 909)
Your task to perform on an android device: Check my email Image 54: 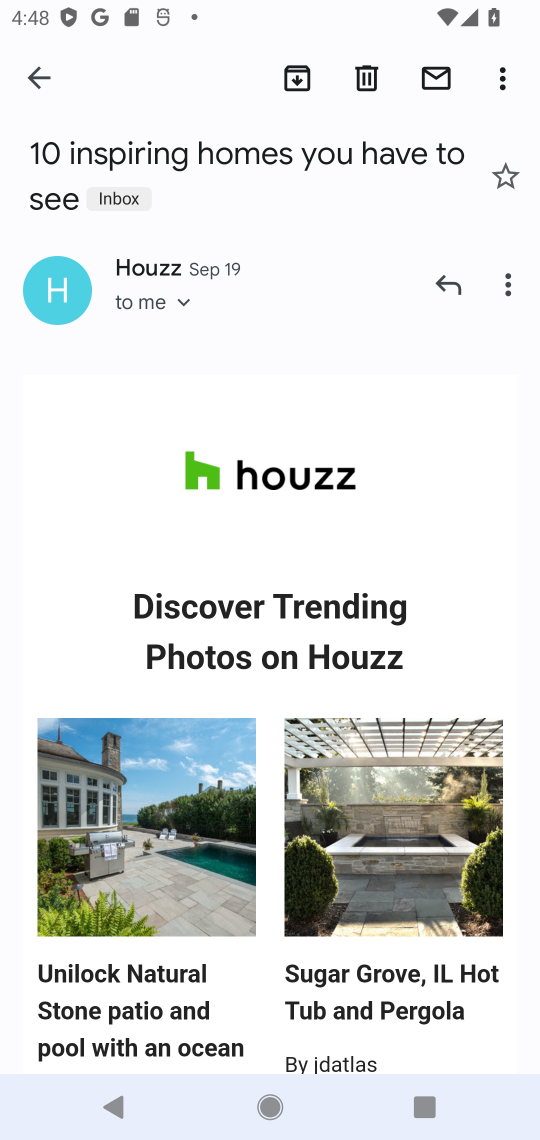
Step 54: click (41, 86)
Your task to perform on an android device: Check my email Image 55: 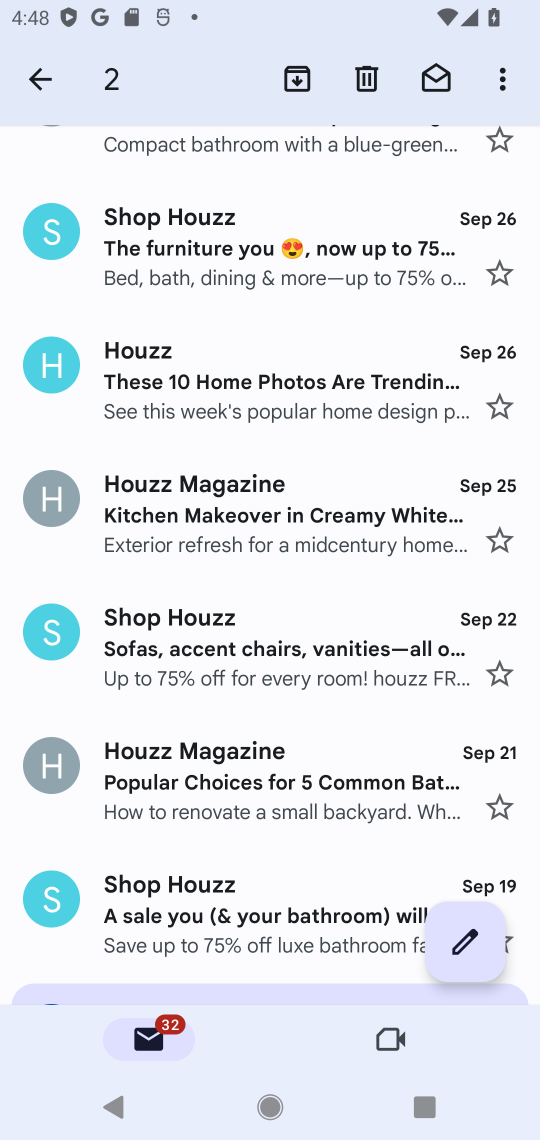
Step 55: drag from (335, 478) to (377, 230)
Your task to perform on an android device: Check my email Image 56: 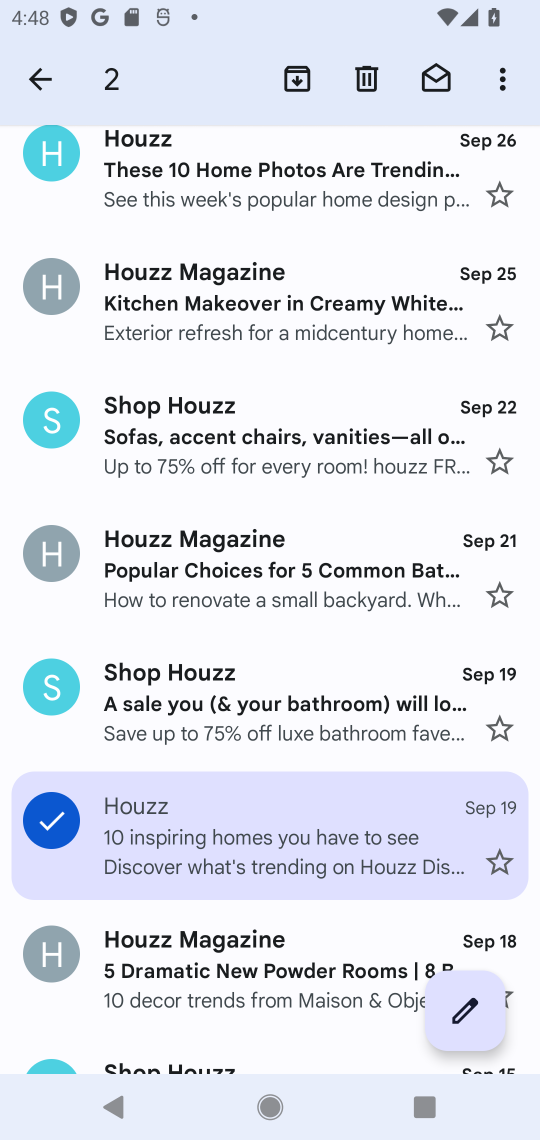
Step 56: click (350, 367)
Your task to perform on an android device: Check my email Image 57: 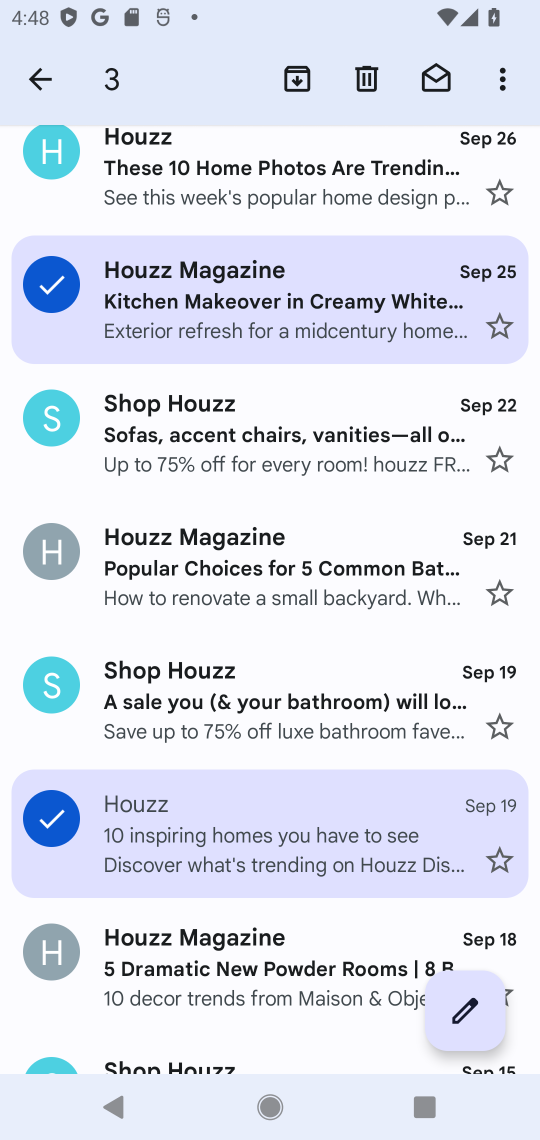
Step 57: click (63, 273)
Your task to perform on an android device: Check my email Image 58: 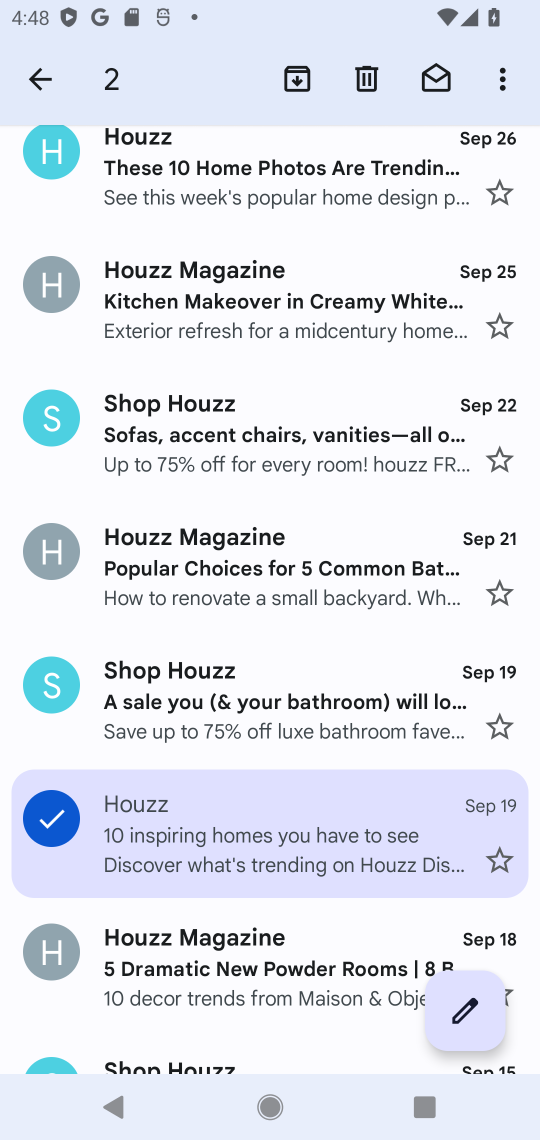
Step 58: drag from (342, 399) to (402, 307)
Your task to perform on an android device: Check my email Image 59: 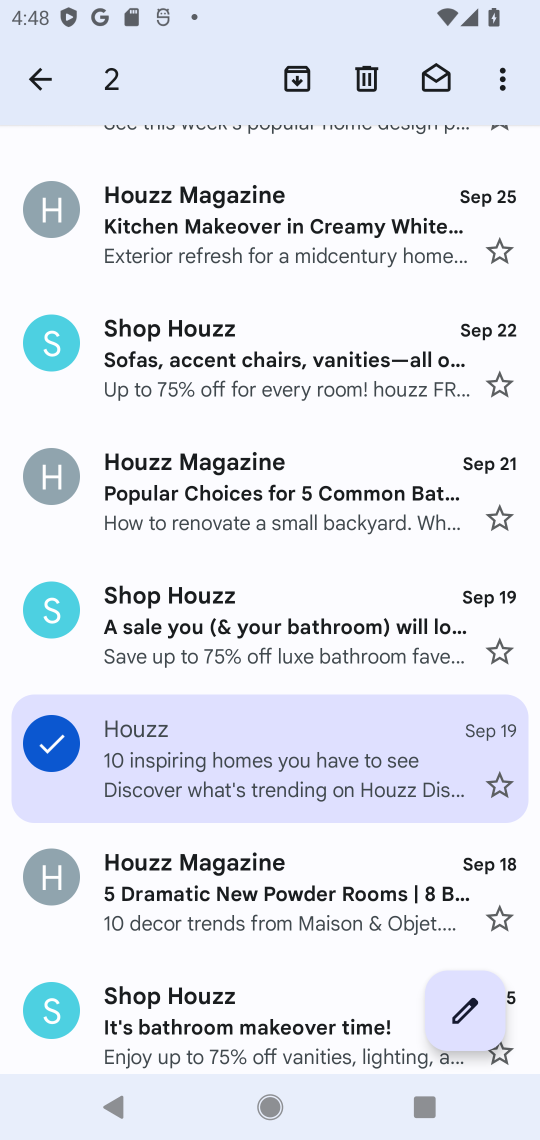
Step 59: click (37, 738)
Your task to perform on an android device: Check my email Image 60: 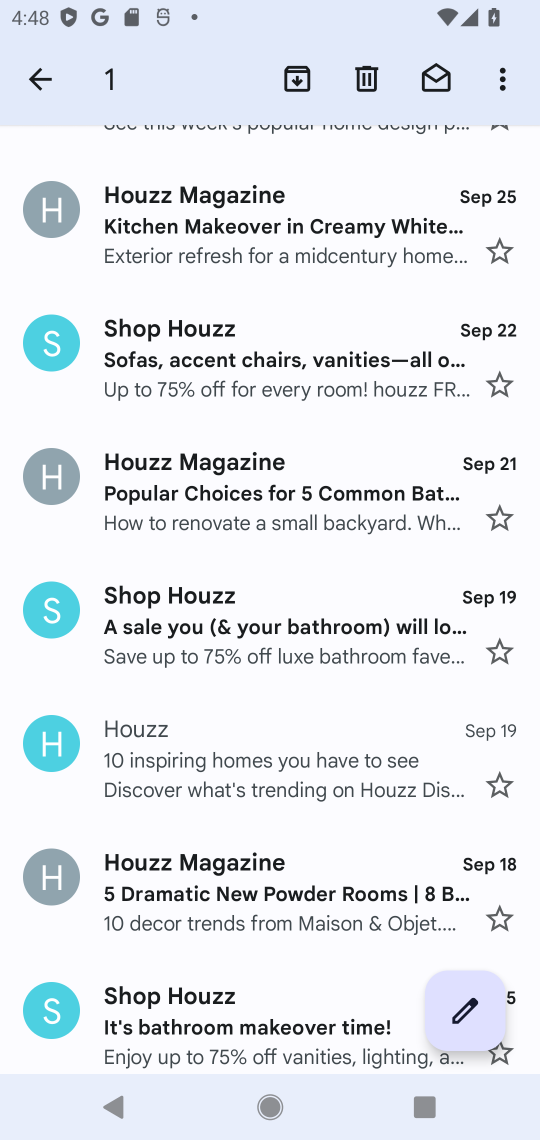
Step 60: click (48, 754)
Your task to perform on an android device: Check my email Image 61: 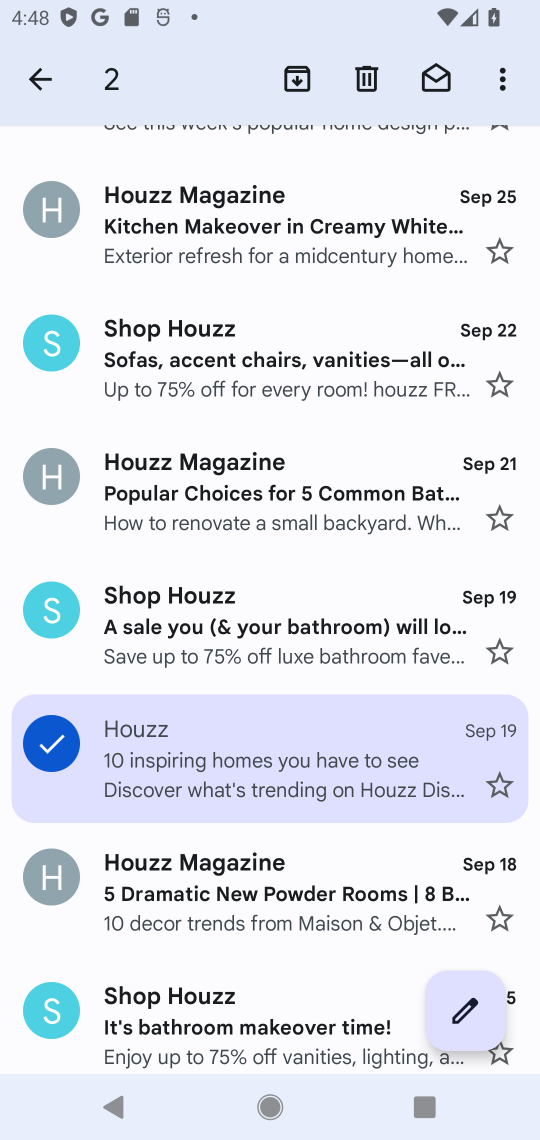
Step 61: click (65, 751)
Your task to perform on an android device: Check my email Image 62: 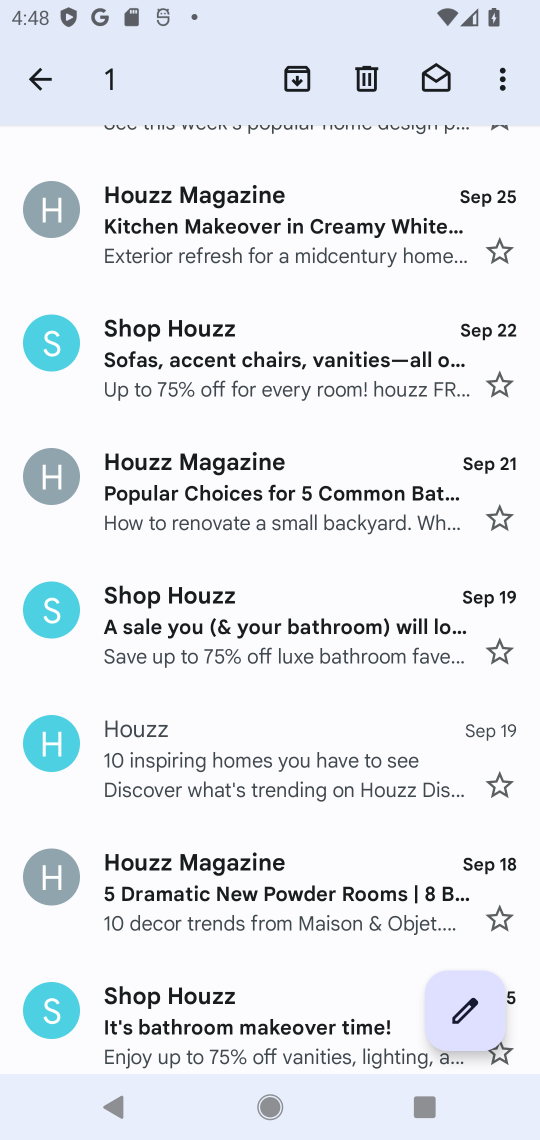
Step 62: task complete